Your task to perform on an android device: Search for macbook on newegg, select the first entry, and add it to the cart. Image 0: 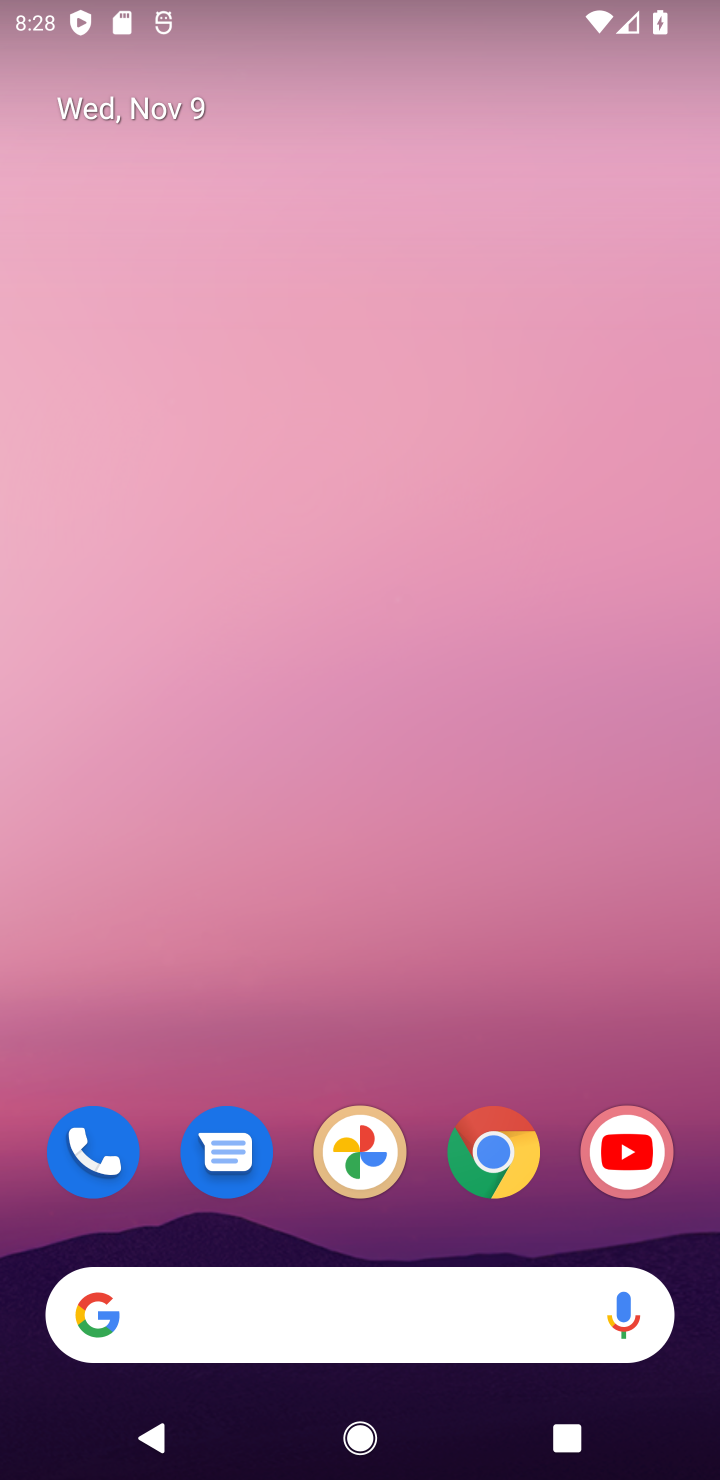
Step 0: click (487, 1158)
Your task to perform on an android device: Search for macbook on newegg, select the first entry, and add it to the cart. Image 1: 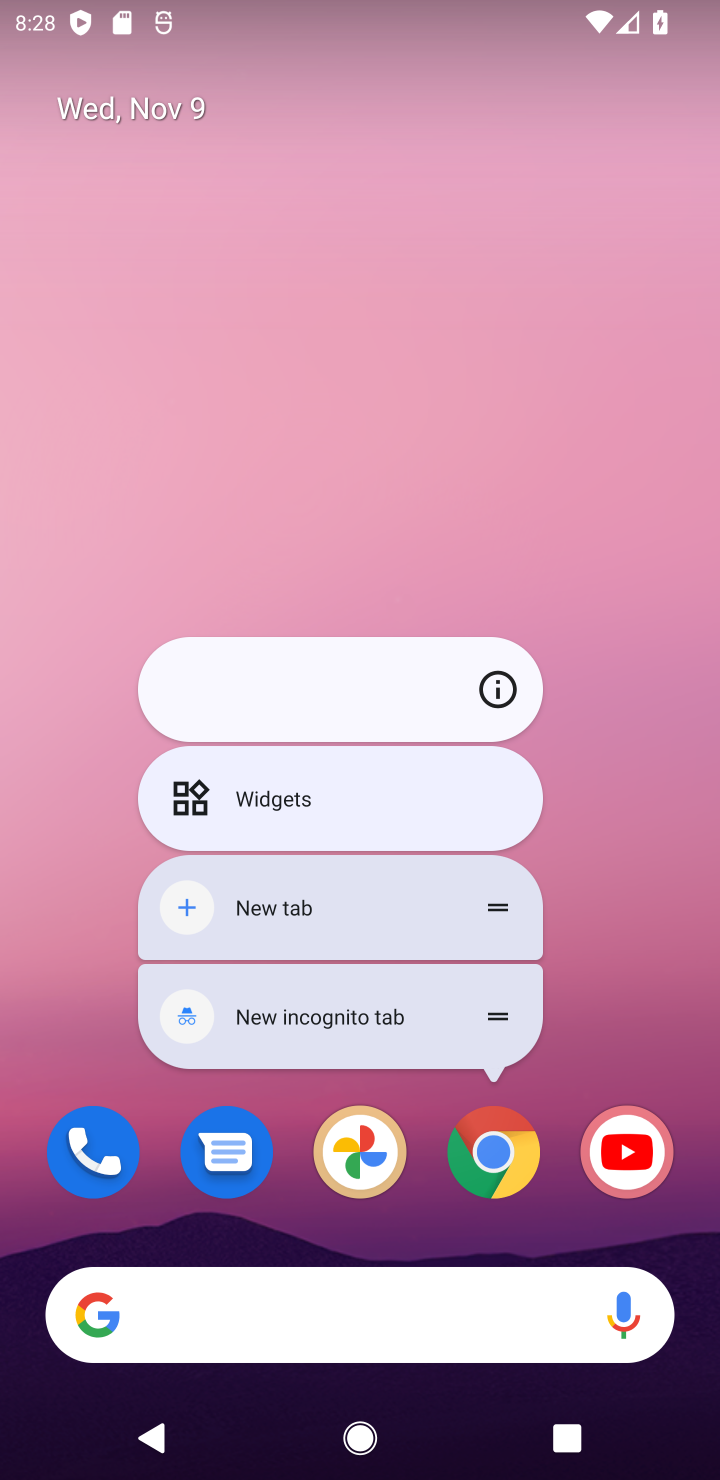
Step 1: click (487, 1156)
Your task to perform on an android device: Search for macbook on newegg, select the first entry, and add it to the cart. Image 2: 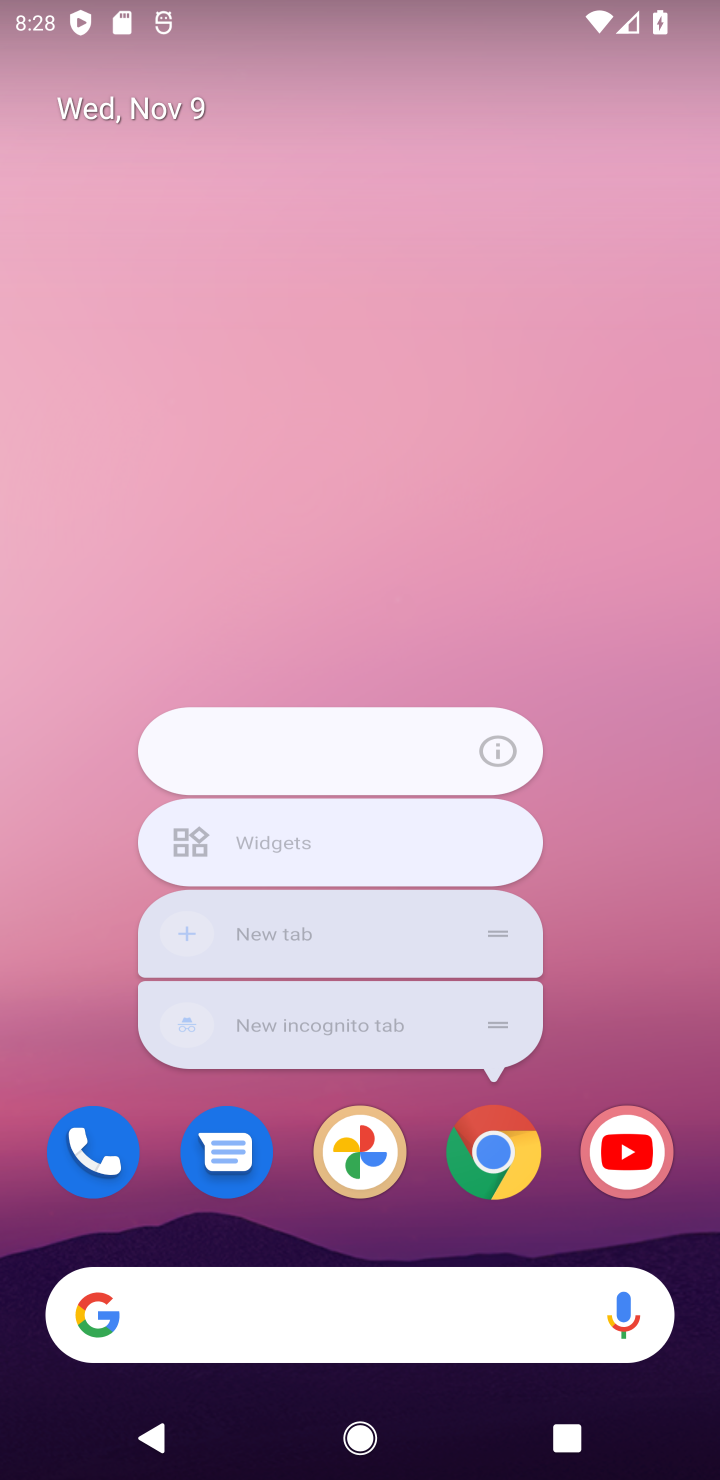
Step 2: click (487, 1156)
Your task to perform on an android device: Search for macbook on newegg, select the first entry, and add it to the cart. Image 3: 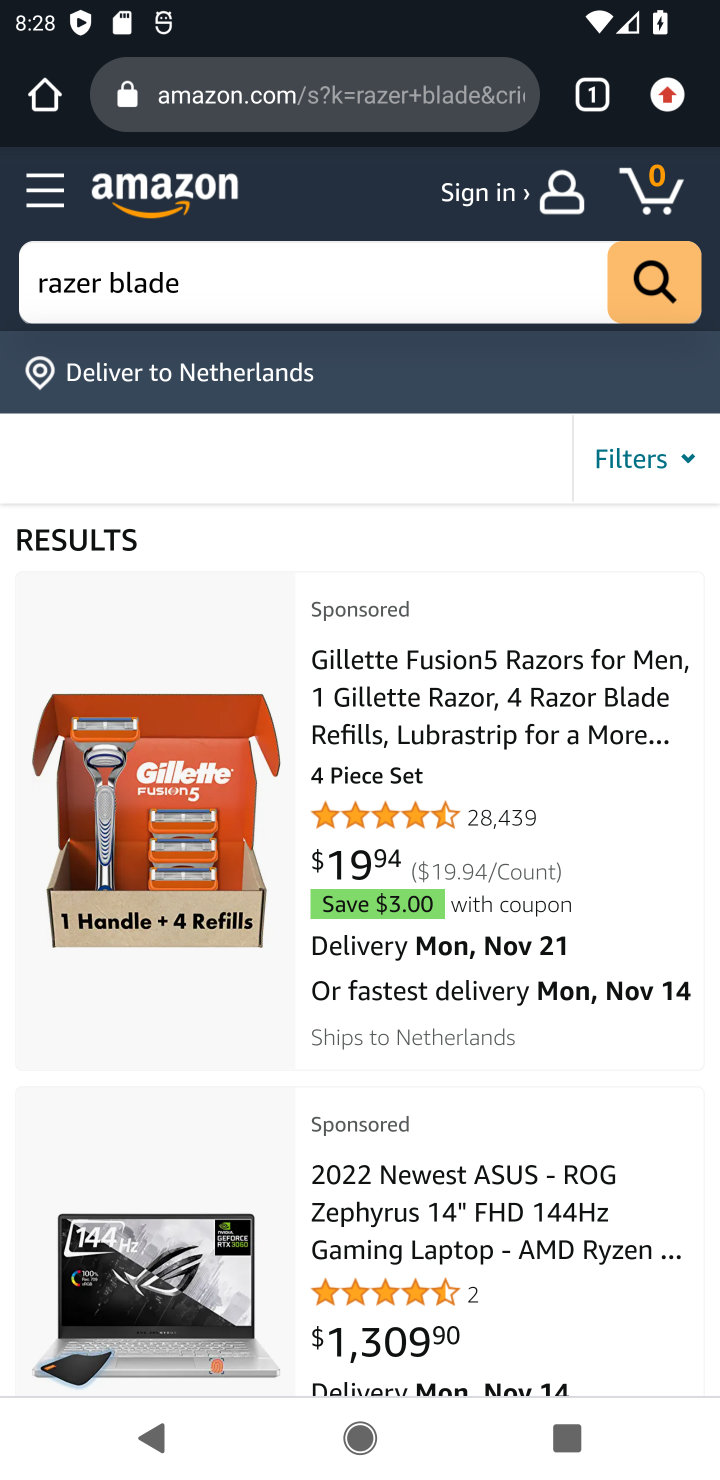
Step 3: click (358, 95)
Your task to perform on an android device: Search for macbook on newegg, select the first entry, and add it to the cart. Image 4: 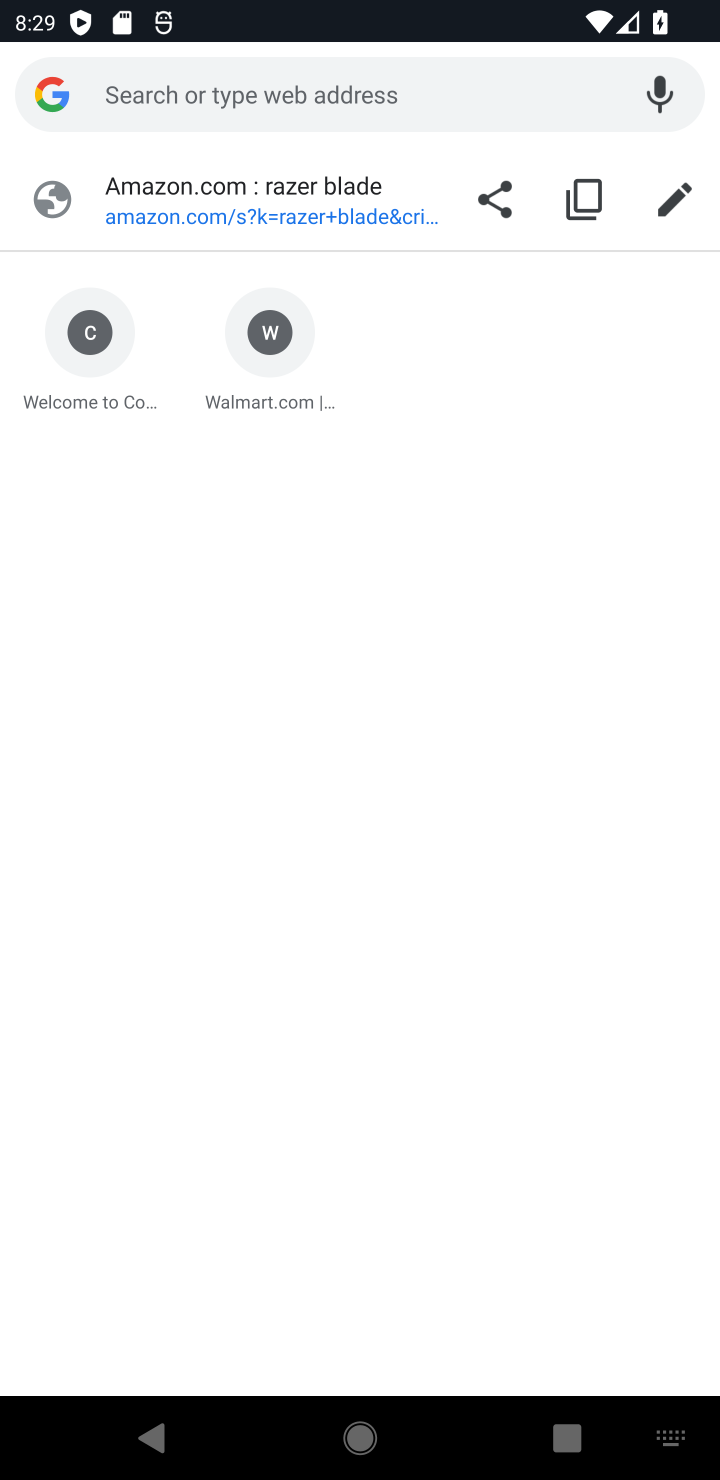
Step 4: press enter
Your task to perform on an android device: Search for macbook on newegg, select the first entry, and add it to the cart. Image 5: 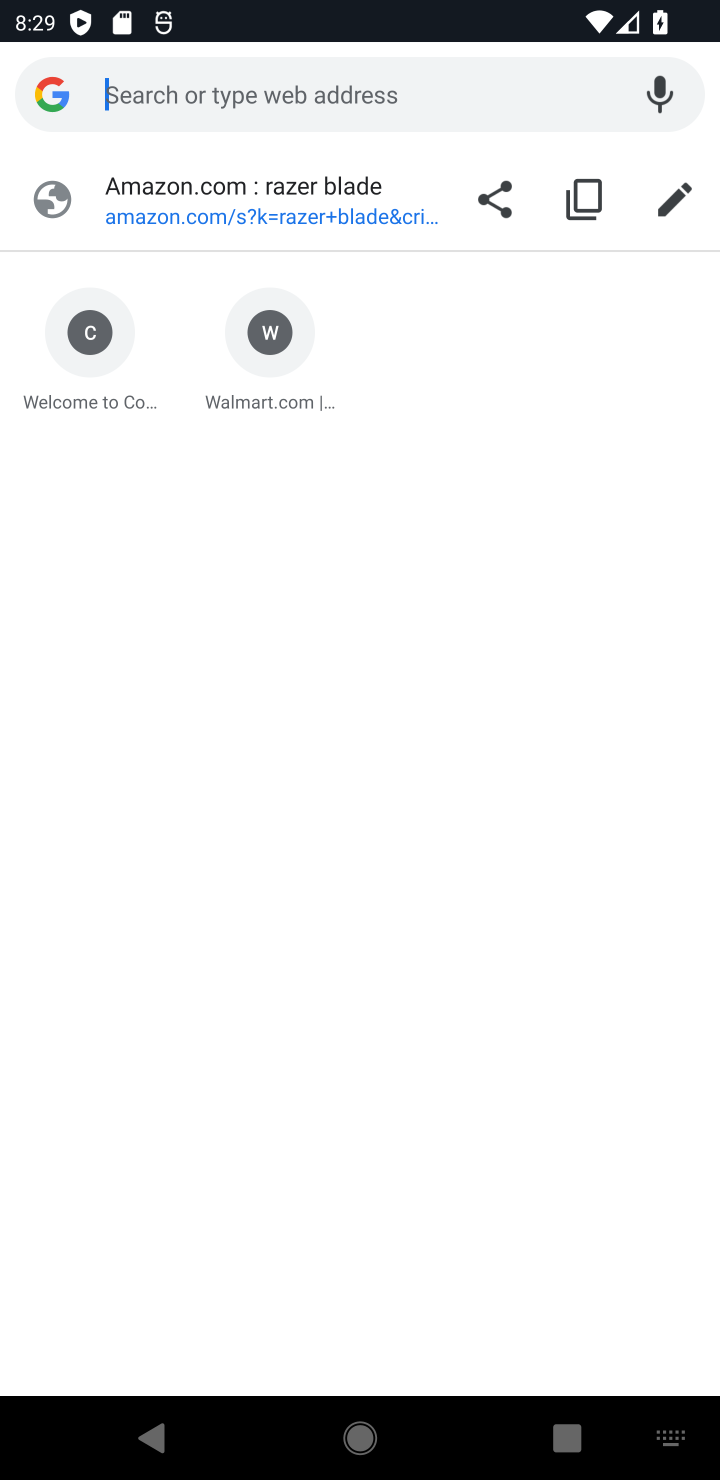
Step 5: type "newegg"
Your task to perform on an android device: Search for macbook on newegg, select the first entry, and add it to the cart. Image 6: 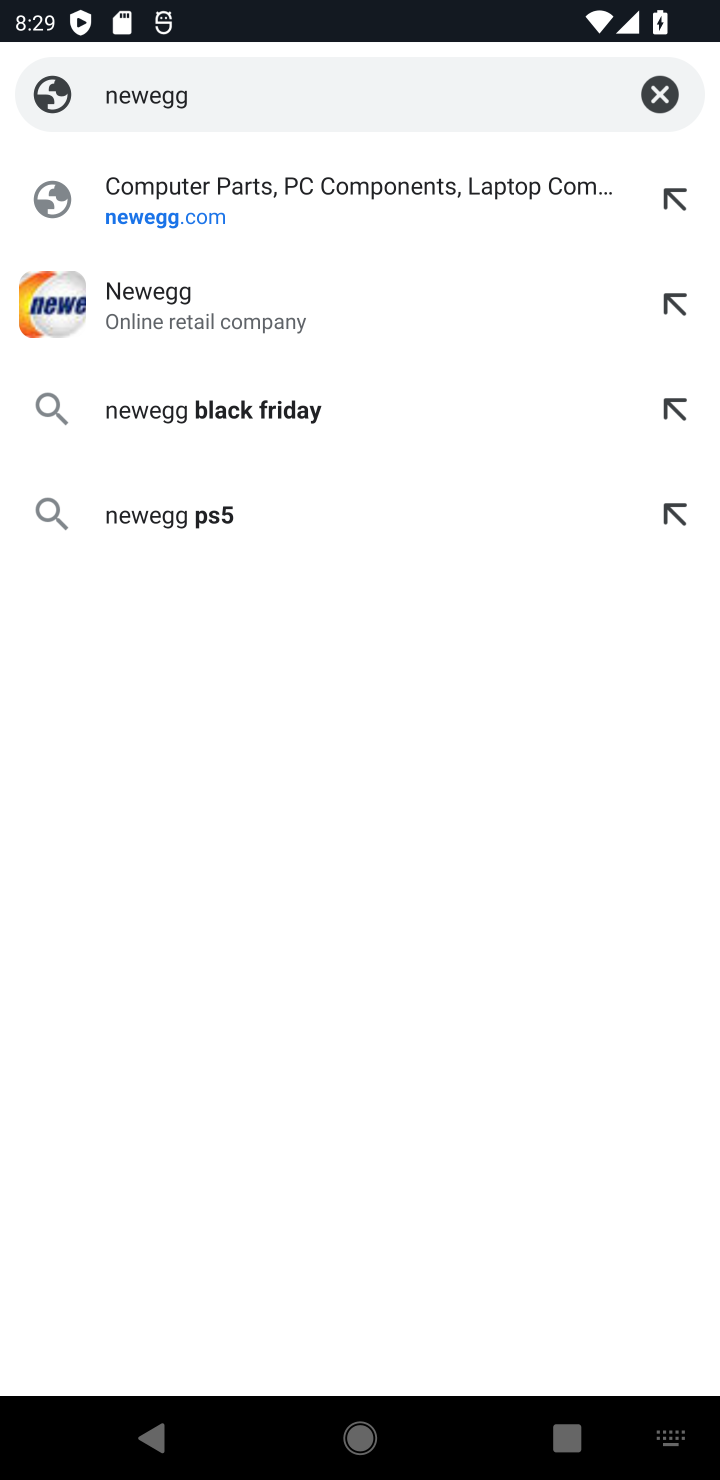
Step 6: click (152, 296)
Your task to perform on an android device: Search for macbook on newegg, select the first entry, and add it to the cart. Image 7: 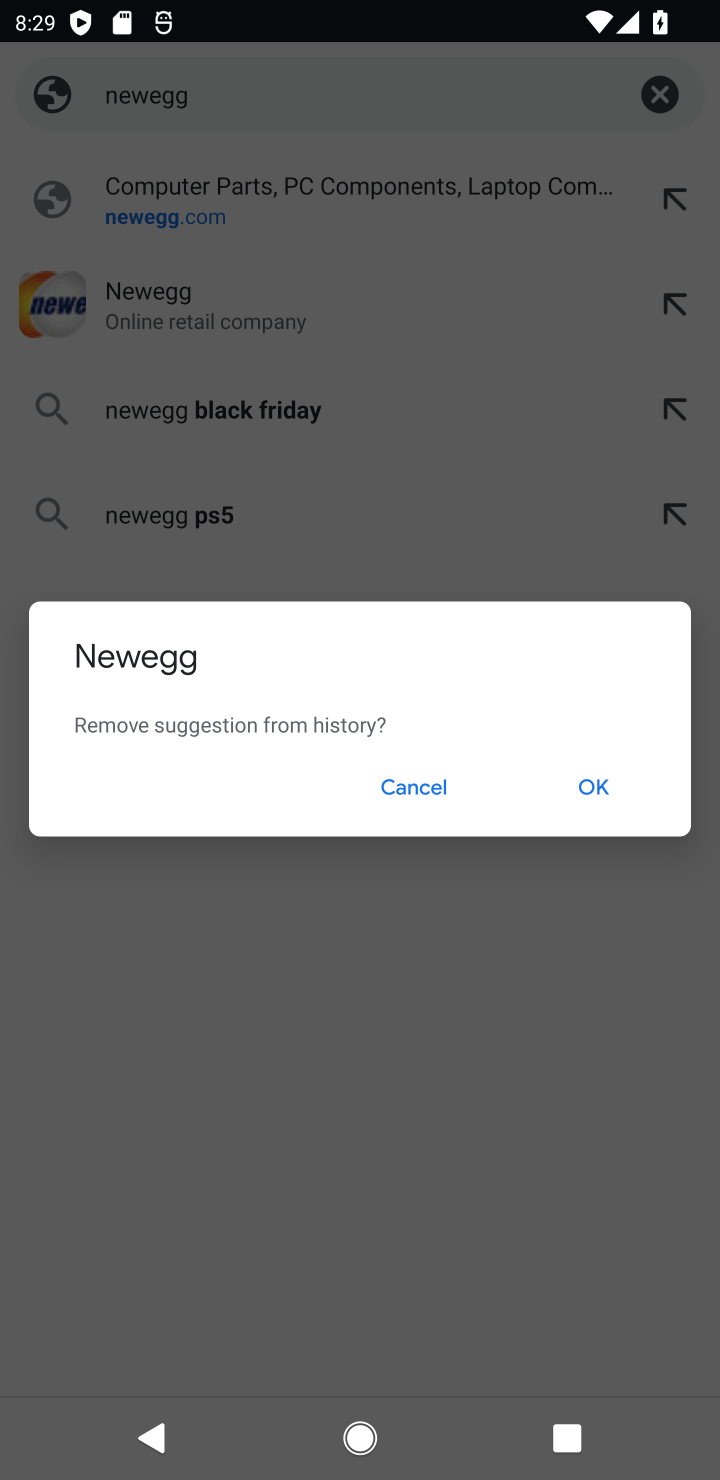
Step 7: click (414, 795)
Your task to perform on an android device: Search for macbook on newegg, select the first entry, and add it to the cart. Image 8: 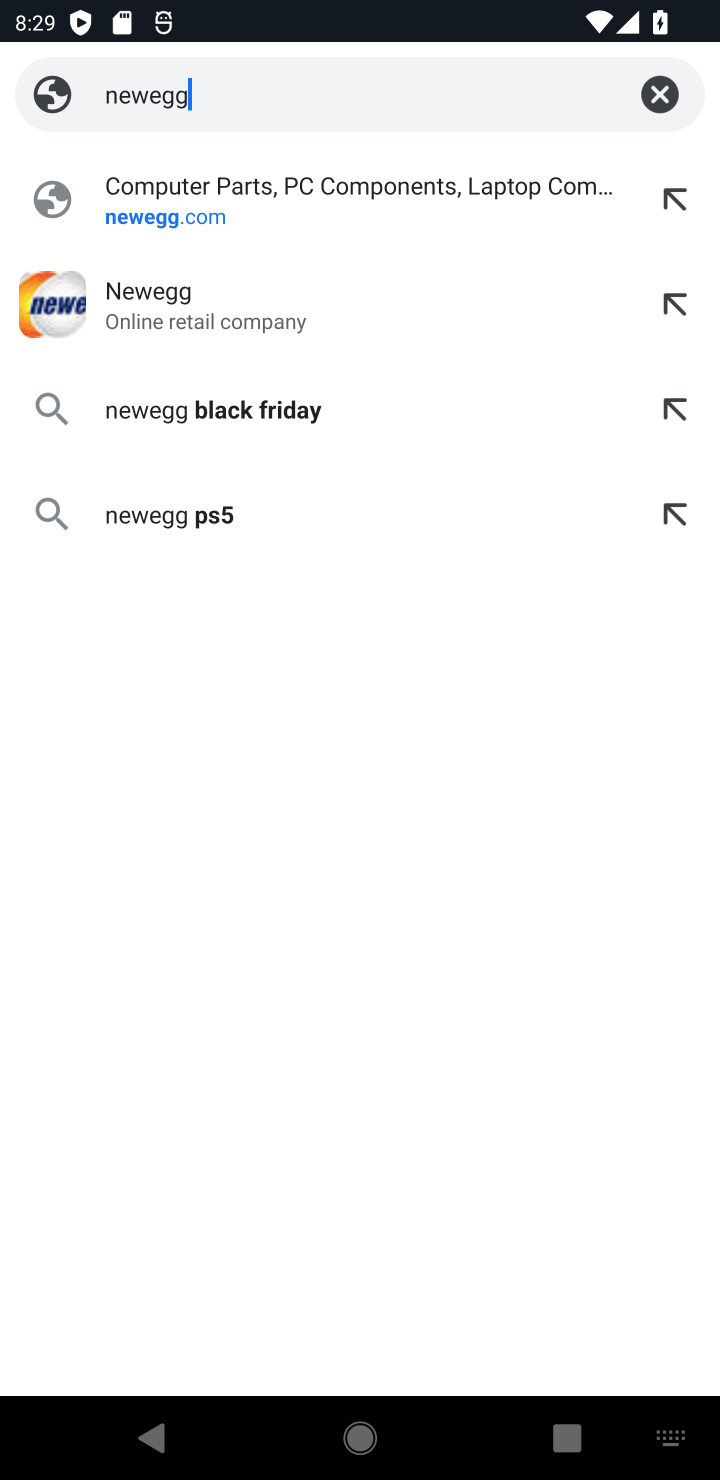
Step 8: click (170, 303)
Your task to perform on an android device: Search for macbook on newegg, select the first entry, and add it to the cart. Image 9: 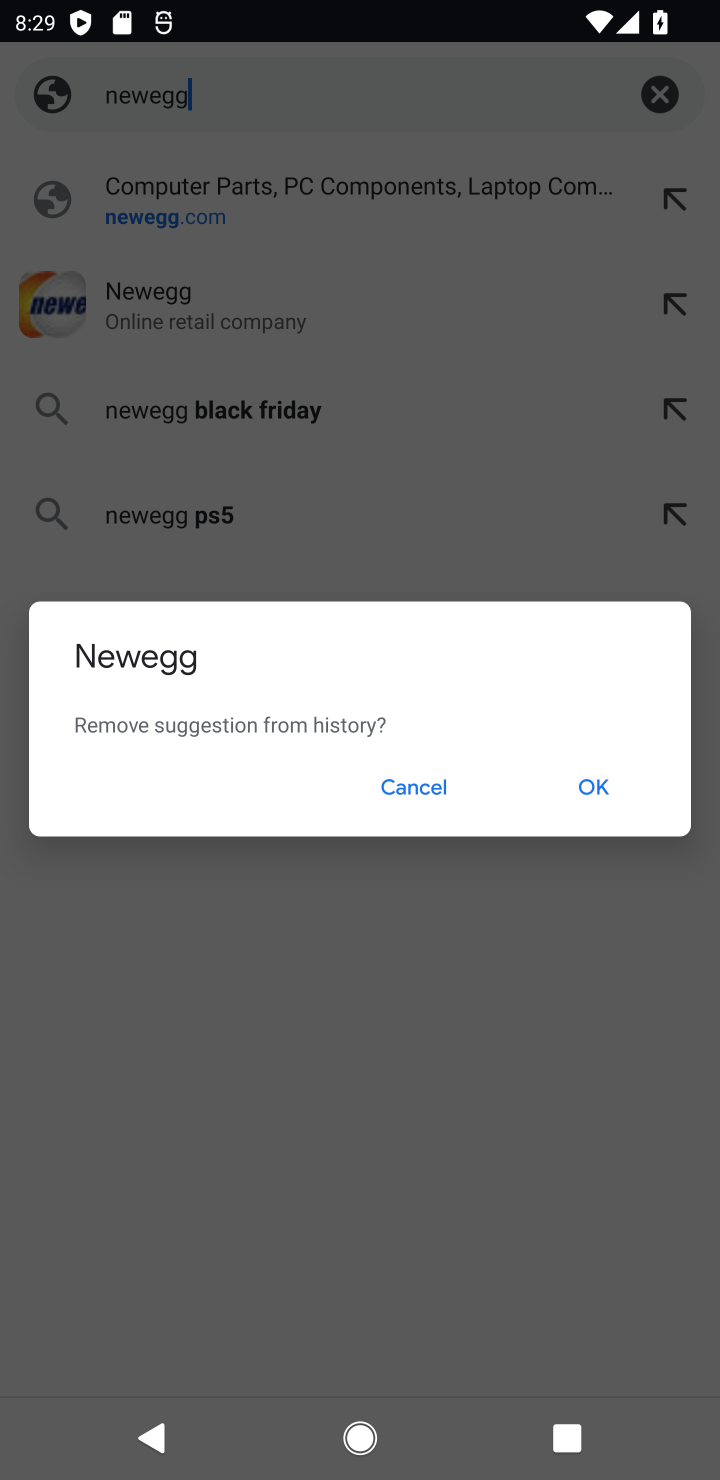
Step 9: click (433, 784)
Your task to perform on an android device: Search for macbook on newegg, select the first entry, and add it to the cart. Image 10: 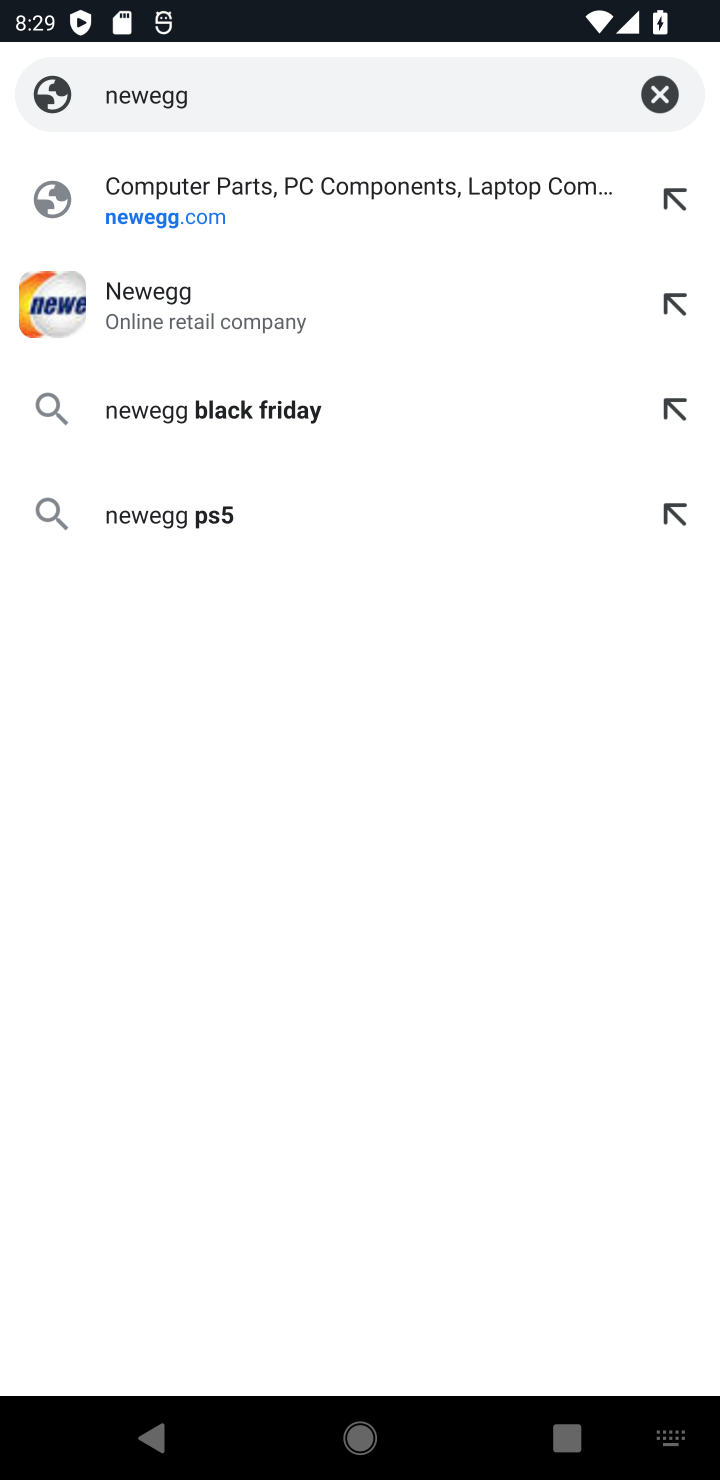
Step 10: click (158, 287)
Your task to perform on an android device: Search for macbook on newegg, select the first entry, and add it to the cart. Image 11: 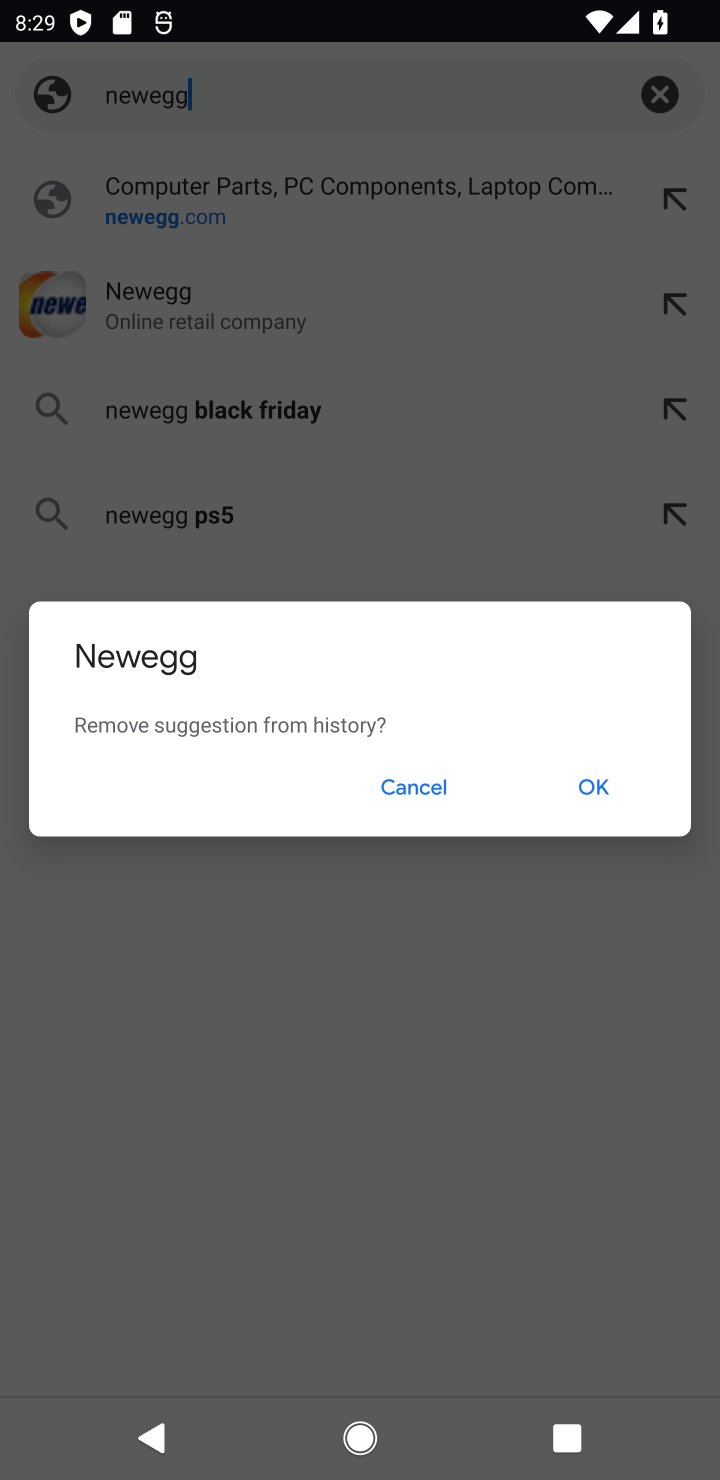
Step 11: click (432, 785)
Your task to perform on an android device: Search for macbook on newegg, select the first entry, and add it to the cart. Image 12: 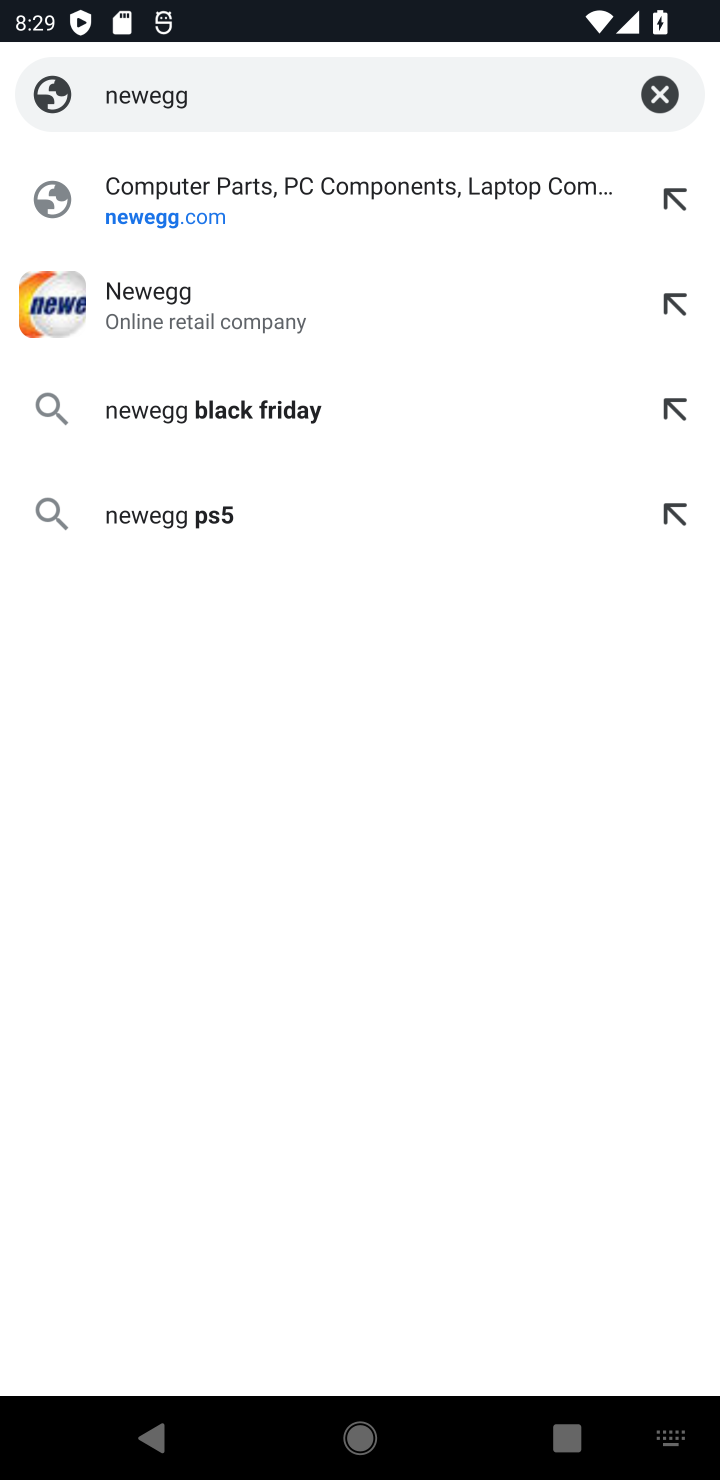
Step 12: press enter
Your task to perform on an android device: Search for macbook on newegg, select the first entry, and add it to the cart. Image 13: 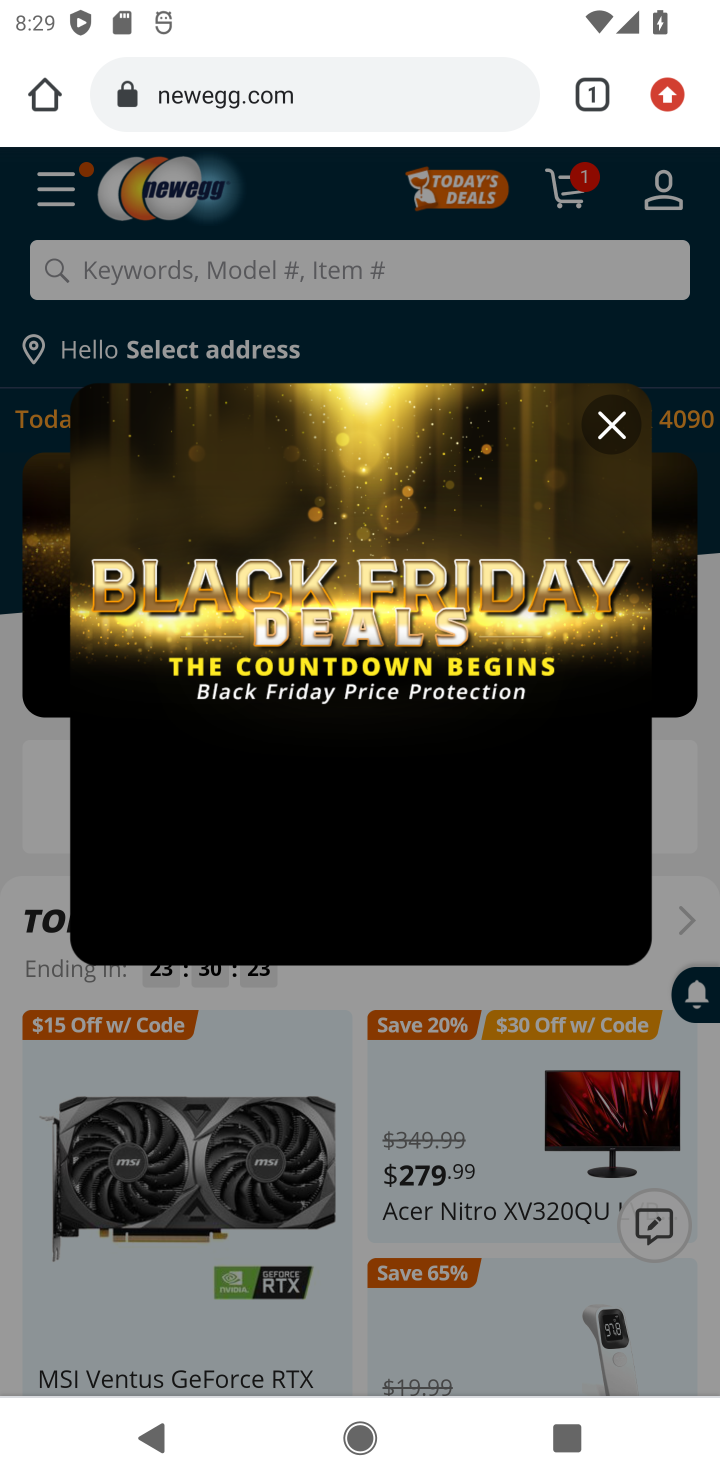
Step 13: click (305, 269)
Your task to perform on an android device: Search for macbook on newegg, select the first entry, and add it to the cart. Image 14: 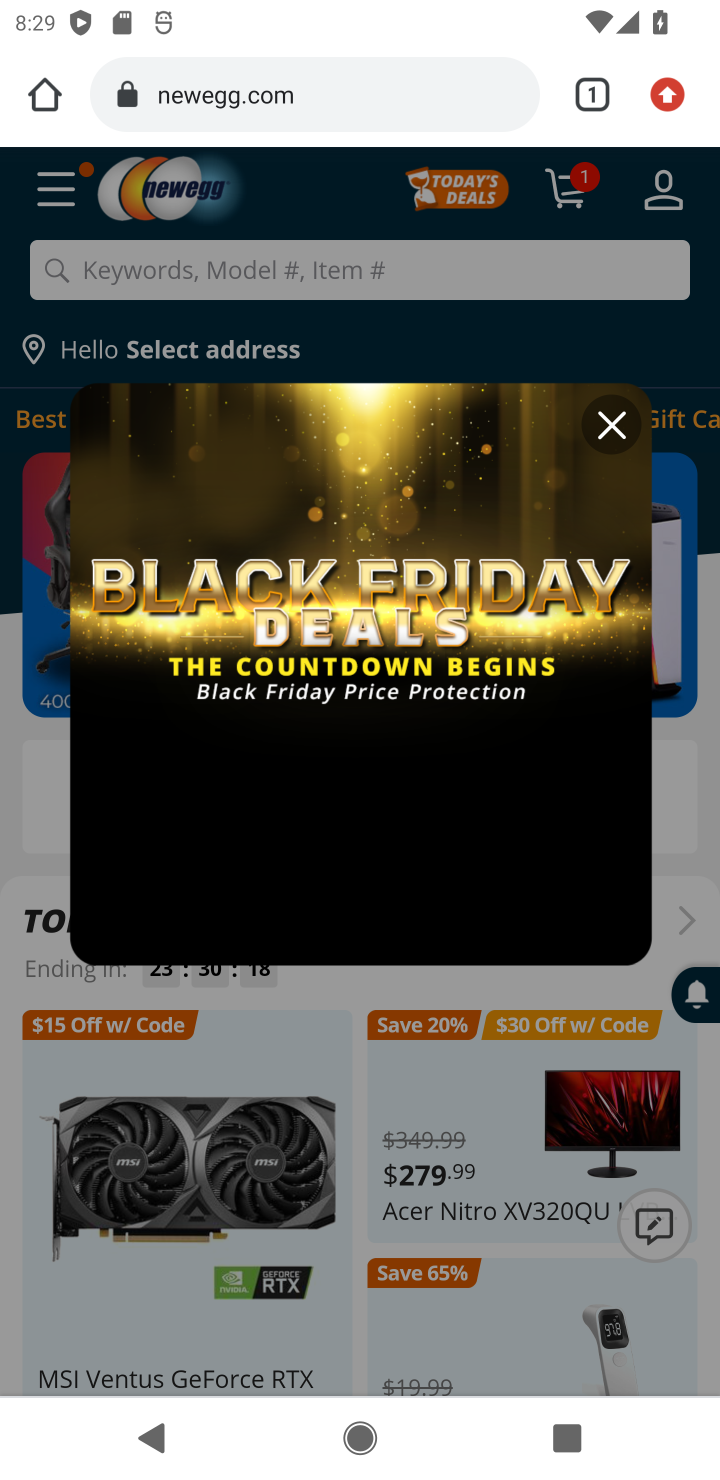
Step 14: click (246, 268)
Your task to perform on an android device: Search for macbook on newegg, select the first entry, and add it to the cart. Image 15: 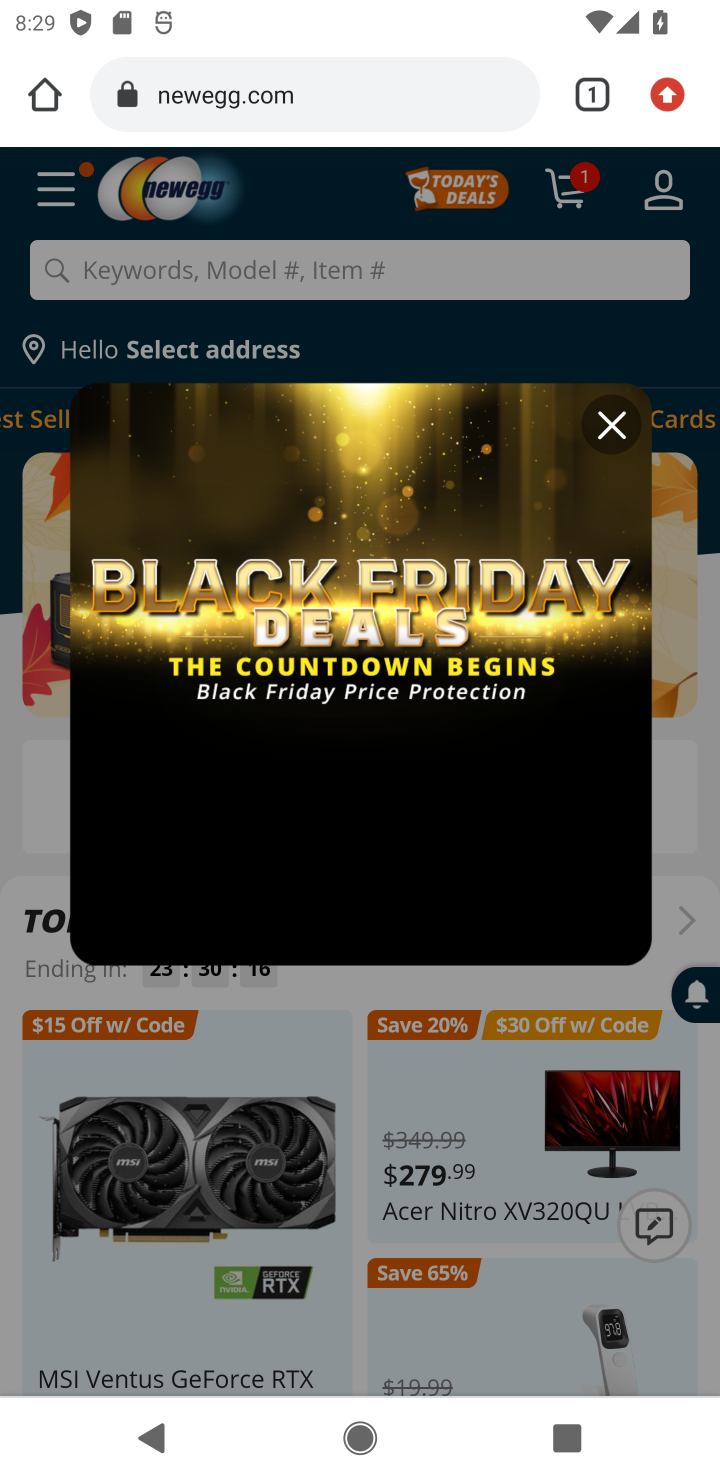
Step 15: click (613, 423)
Your task to perform on an android device: Search for macbook on newegg, select the first entry, and add it to the cart. Image 16: 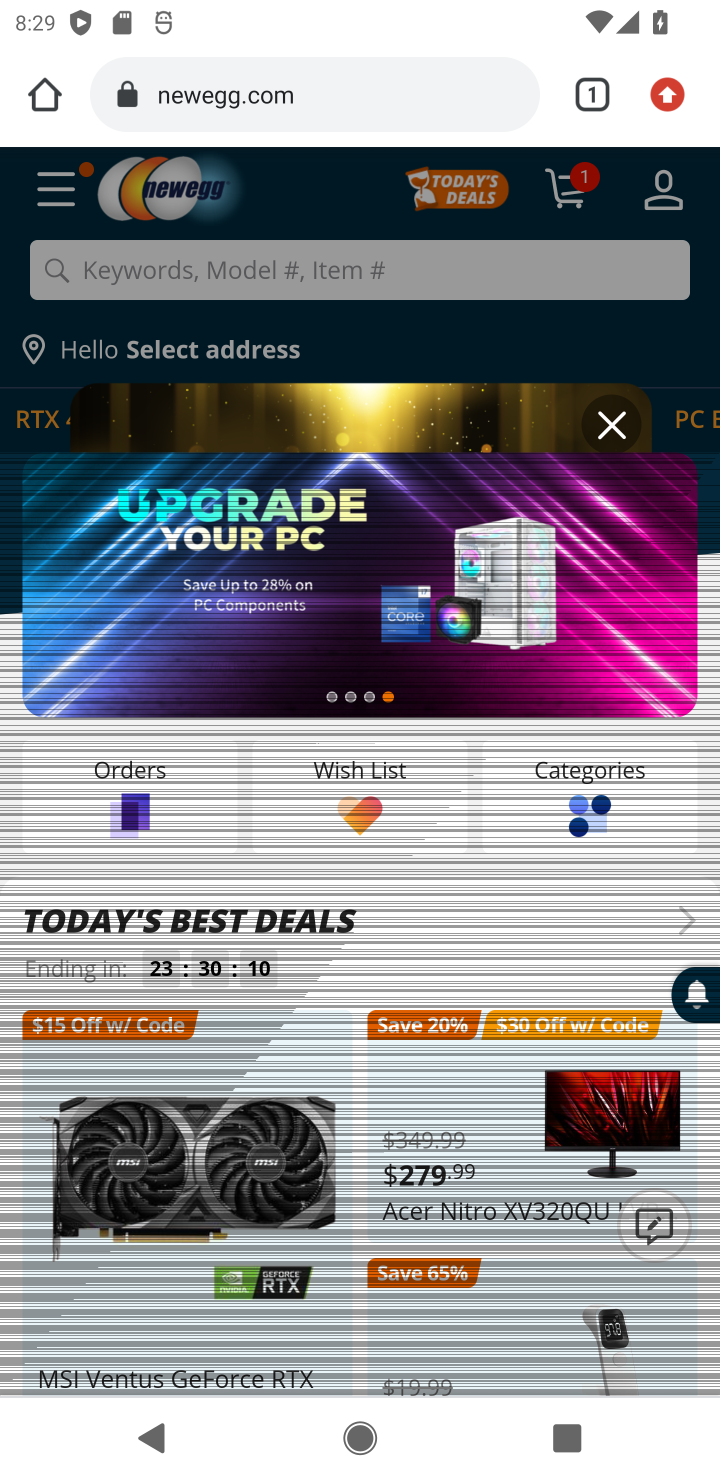
Step 16: click (611, 432)
Your task to perform on an android device: Search for macbook on newegg, select the first entry, and add it to the cart. Image 17: 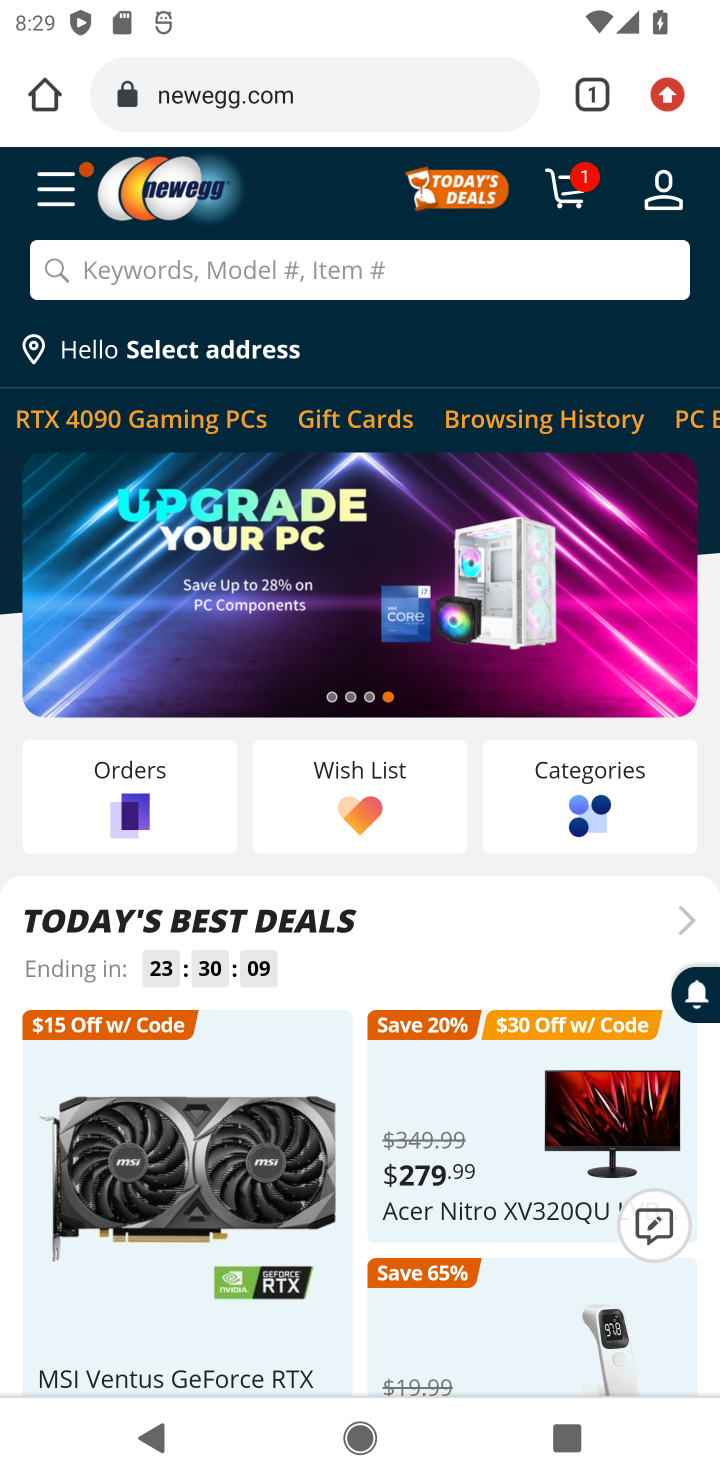
Step 17: click (611, 425)
Your task to perform on an android device: Search for macbook on newegg, select the first entry, and add it to the cart. Image 18: 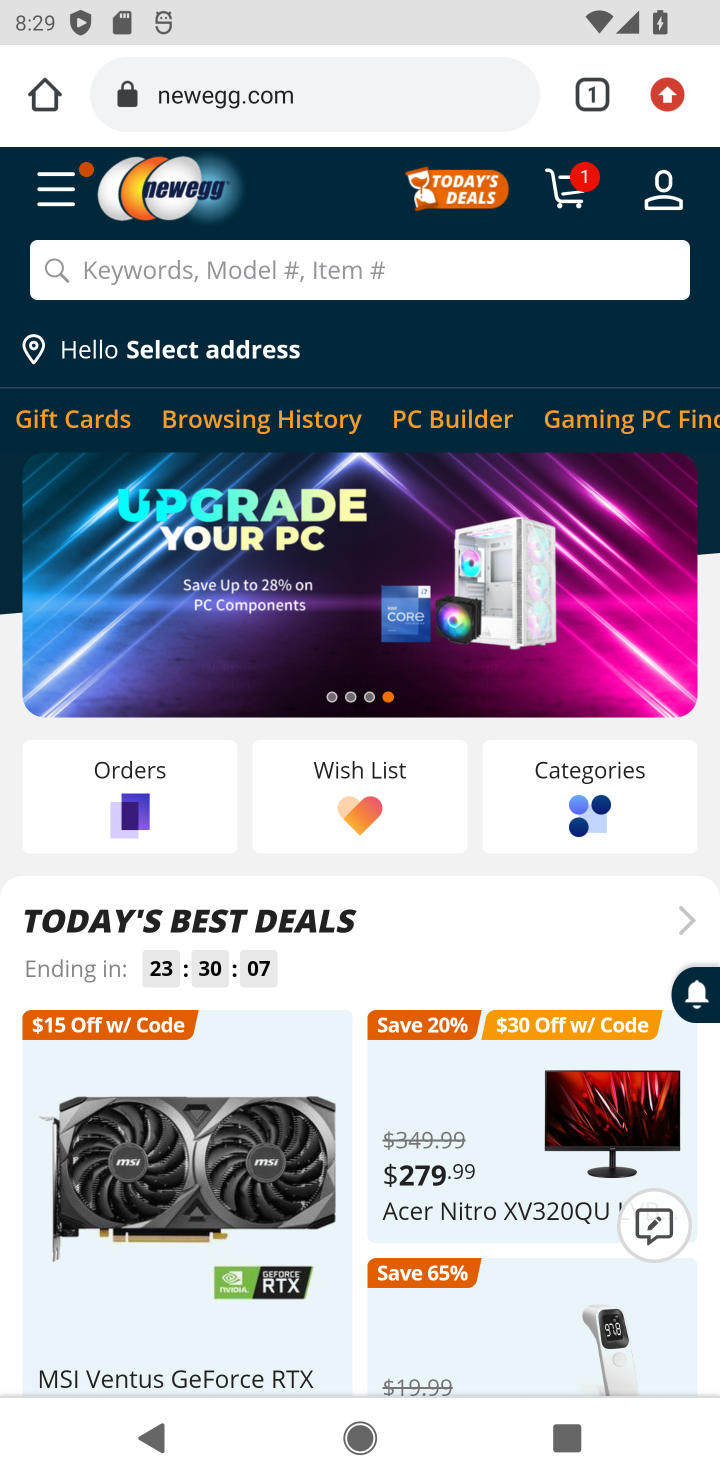
Step 18: click (288, 265)
Your task to perform on an android device: Search for macbook on newegg, select the first entry, and add it to the cart. Image 19: 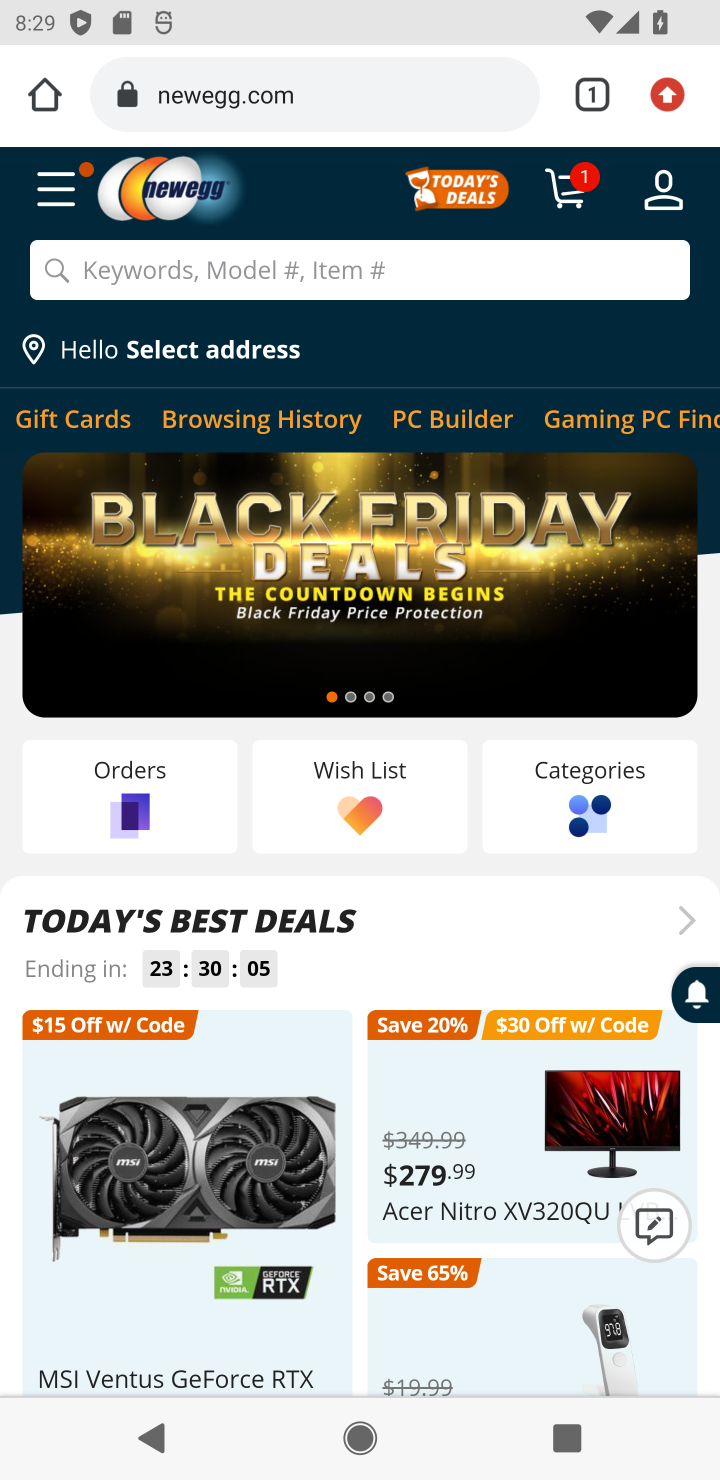
Step 19: click (288, 261)
Your task to perform on an android device: Search for macbook on newegg, select the first entry, and add it to the cart. Image 20: 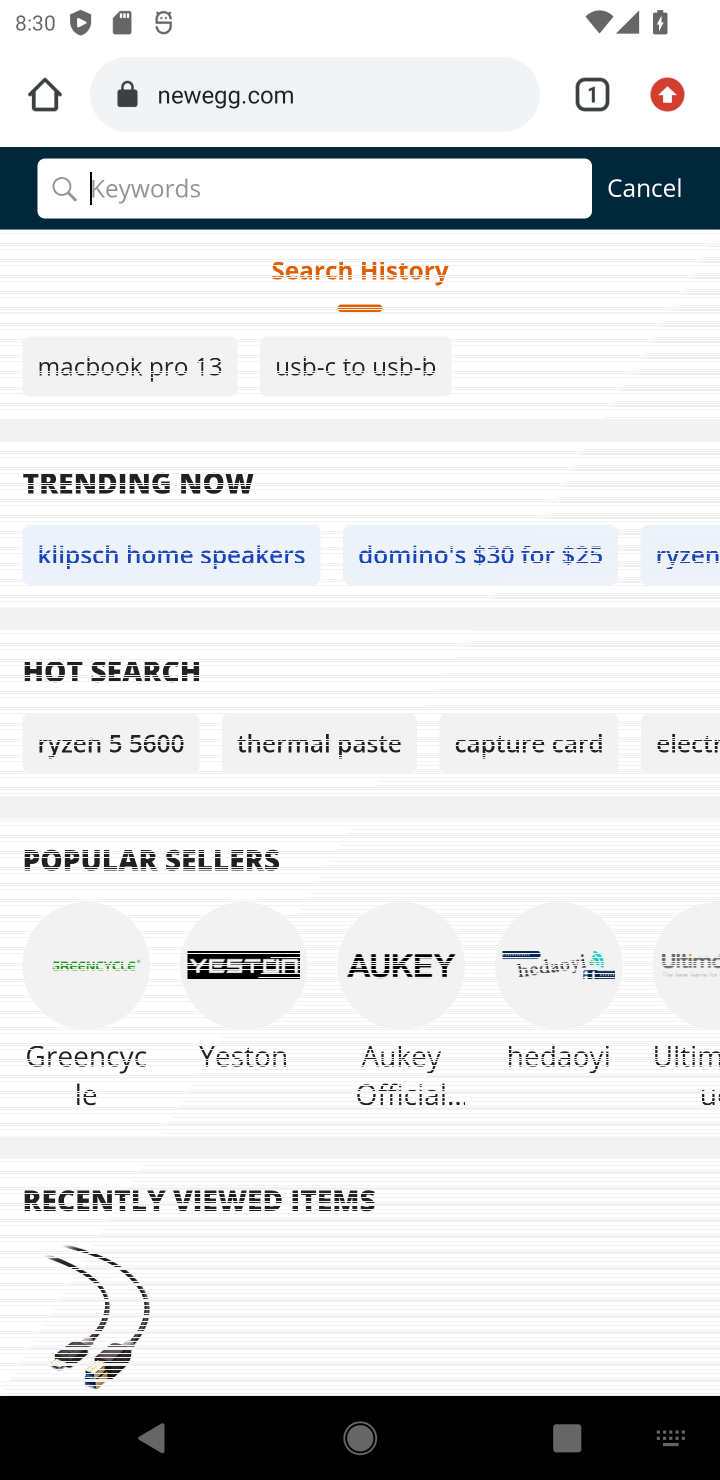
Step 20: type "macbook"
Your task to perform on an android device: Search for macbook on newegg, select the first entry, and add it to the cart. Image 21: 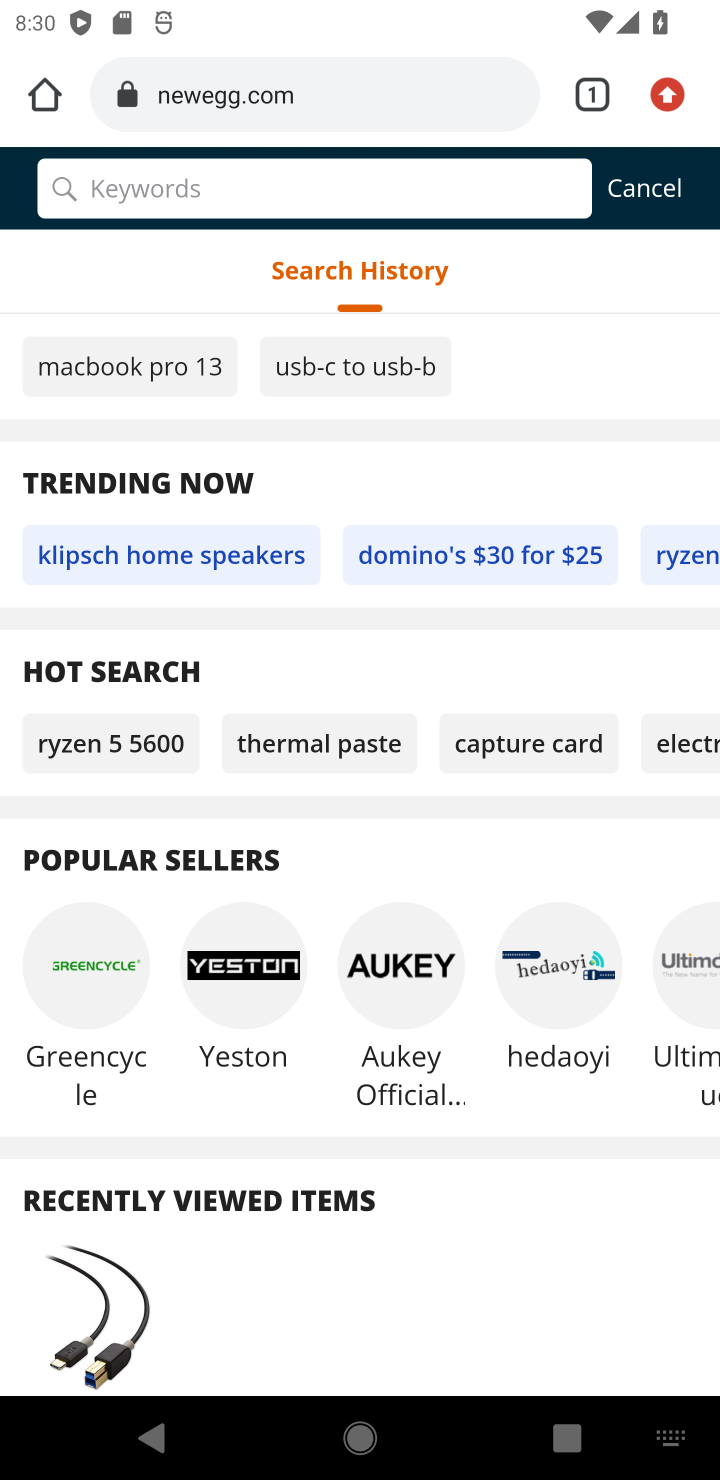
Step 21: press enter
Your task to perform on an android device: Search for macbook on newegg, select the first entry, and add it to the cart. Image 22: 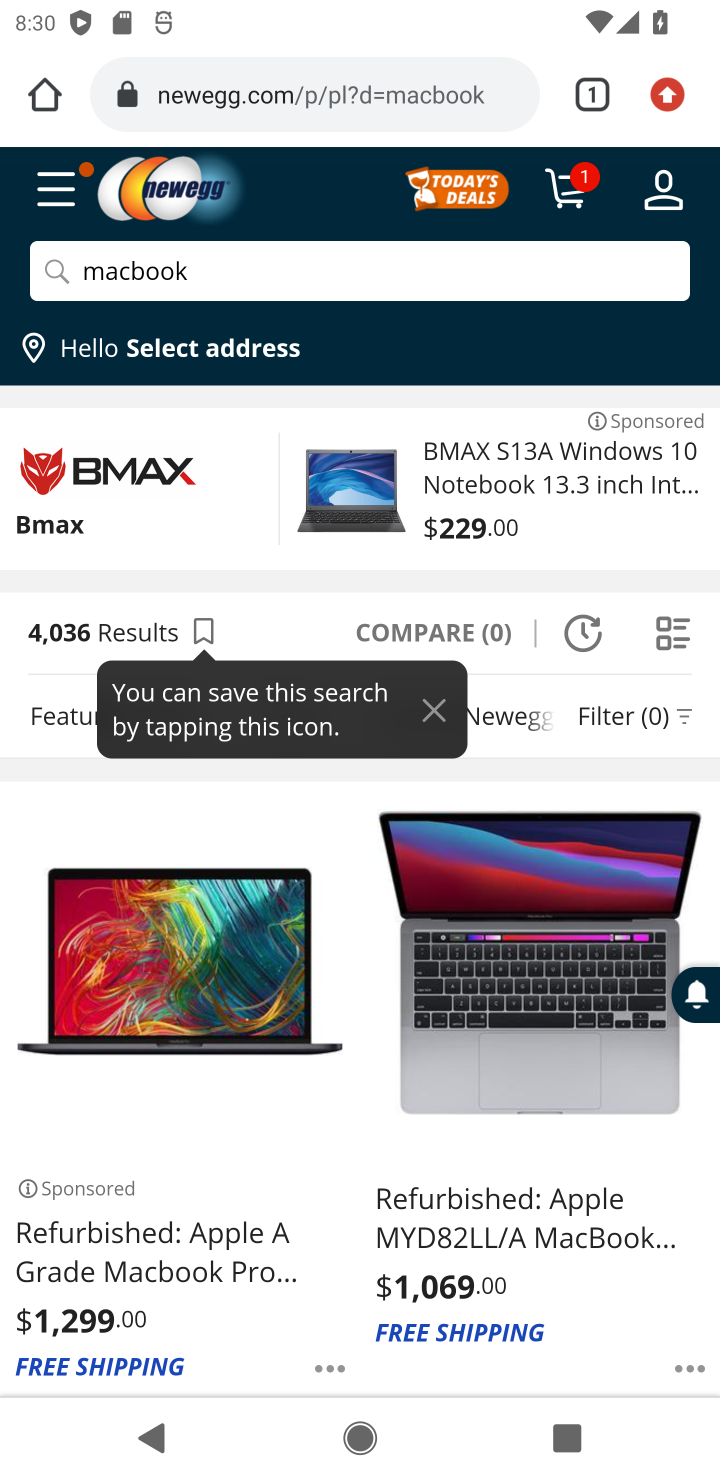
Step 22: click (163, 1258)
Your task to perform on an android device: Search for macbook on newegg, select the first entry, and add it to the cart. Image 23: 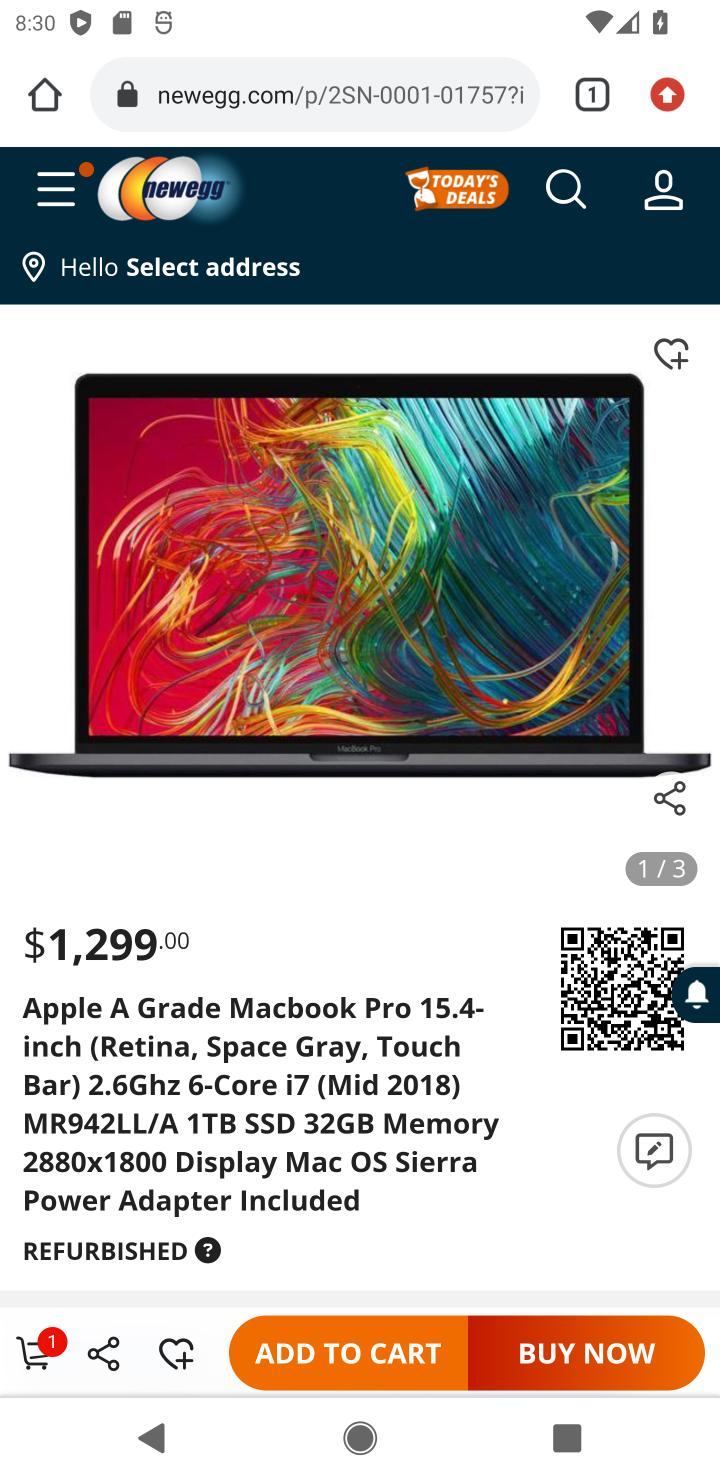
Step 23: drag from (357, 1144) to (572, 671)
Your task to perform on an android device: Search for macbook on newegg, select the first entry, and add it to the cart. Image 24: 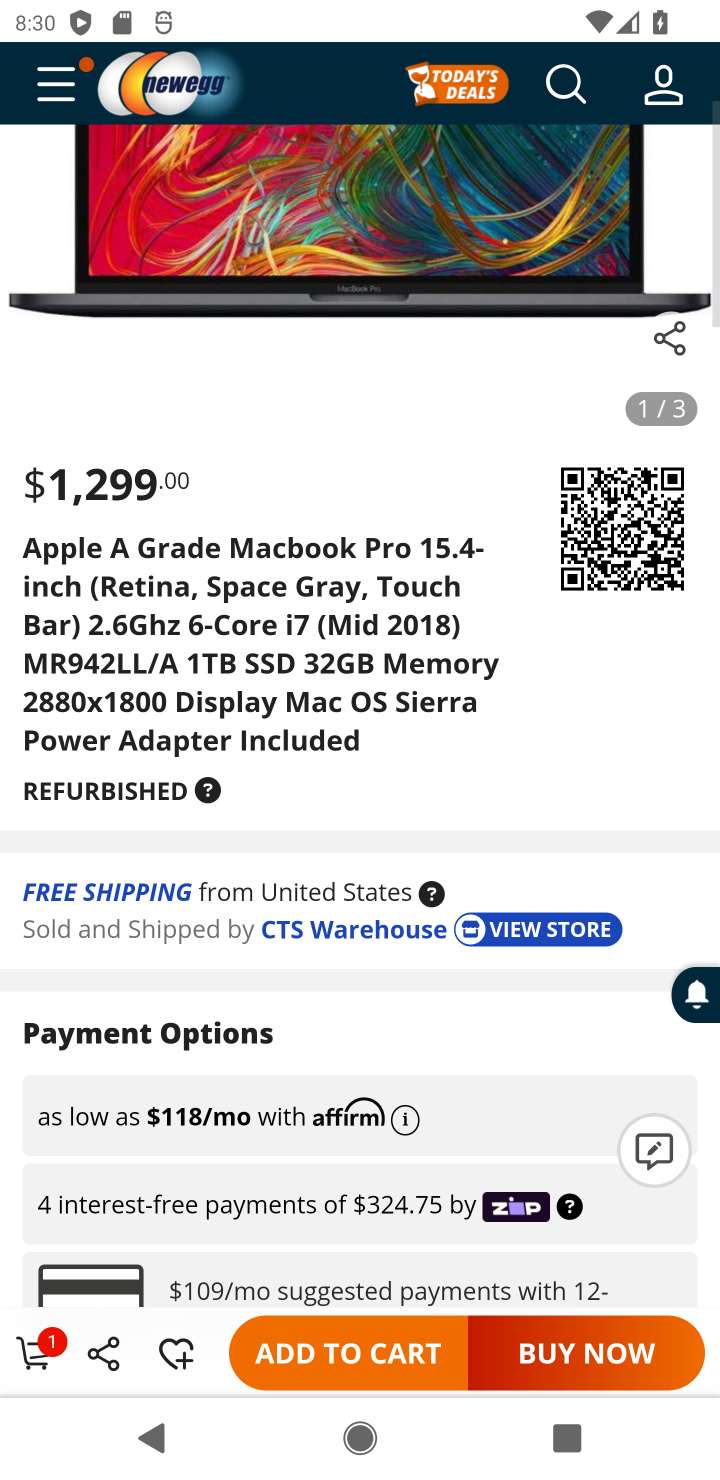
Step 24: click (351, 1354)
Your task to perform on an android device: Search for macbook on newegg, select the first entry, and add it to the cart. Image 25: 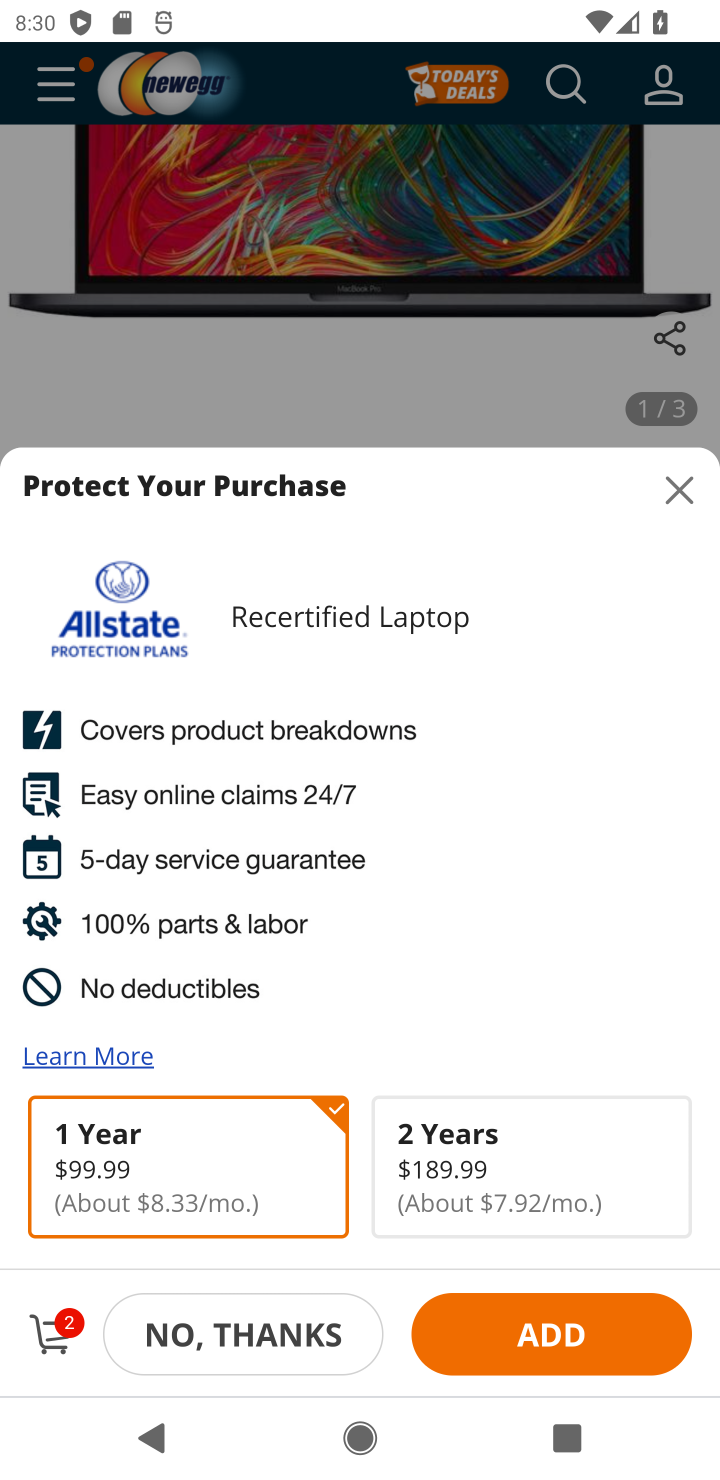
Step 25: click (64, 1320)
Your task to perform on an android device: Search for macbook on newegg, select the first entry, and add it to the cart. Image 26: 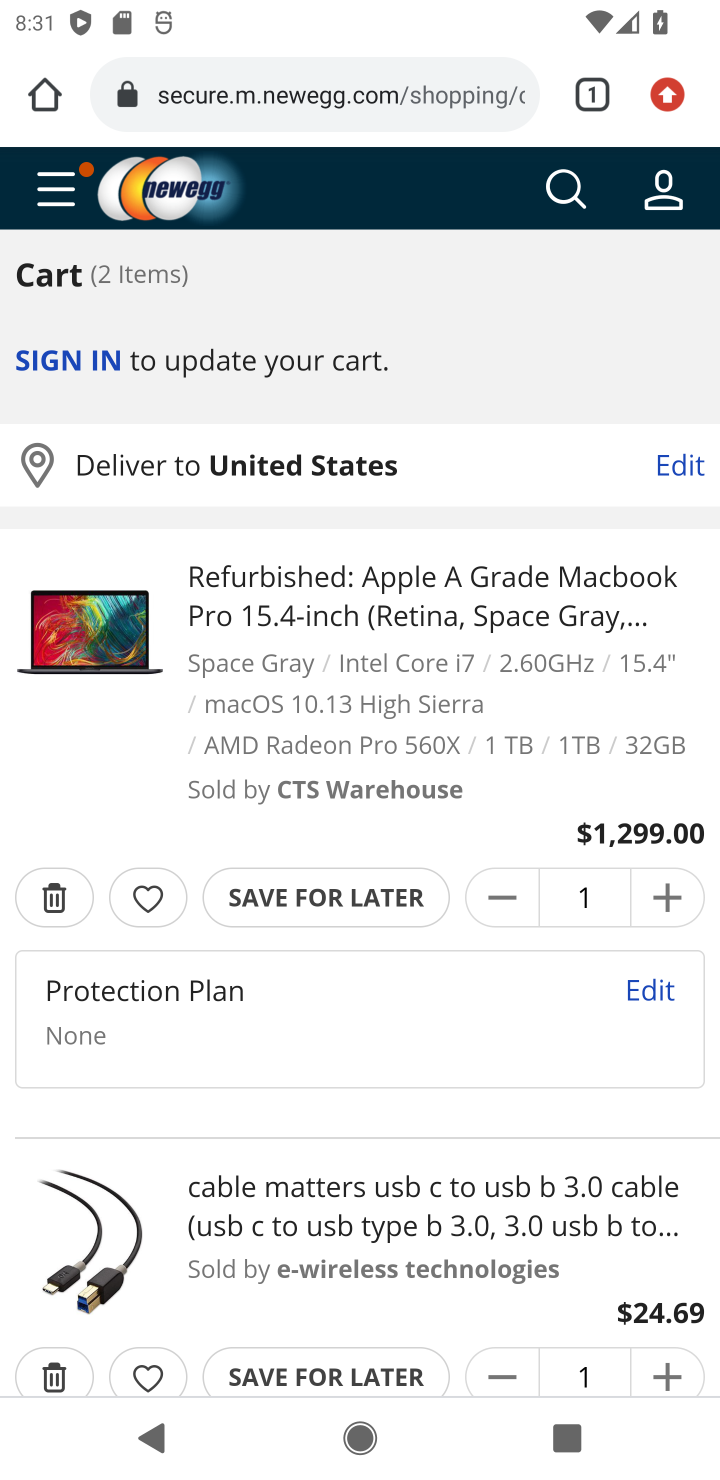
Step 26: drag from (176, 1147) to (496, 311)
Your task to perform on an android device: Search for macbook on newegg, select the first entry, and add it to the cart. Image 27: 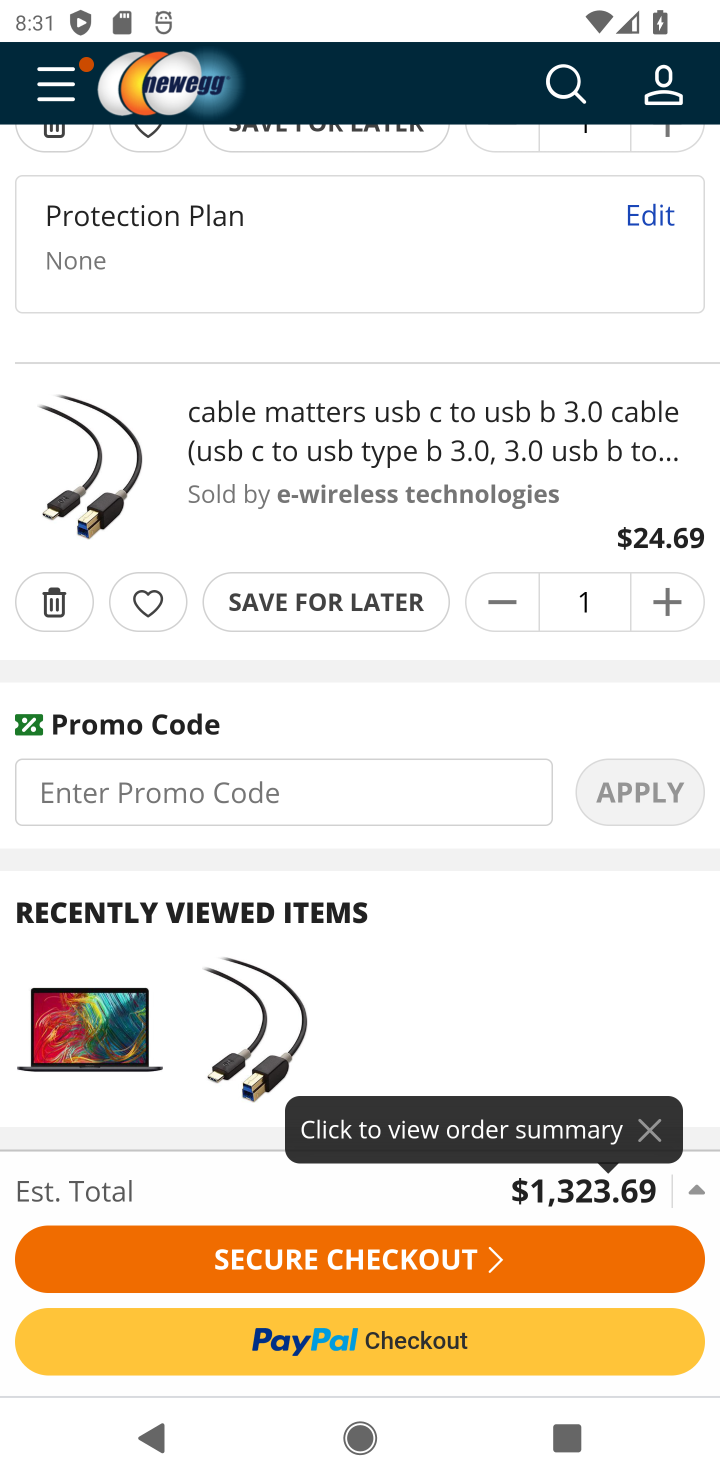
Step 27: click (53, 602)
Your task to perform on an android device: Search for macbook on newegg, select the first entry, and add it to the cart. Image 28: 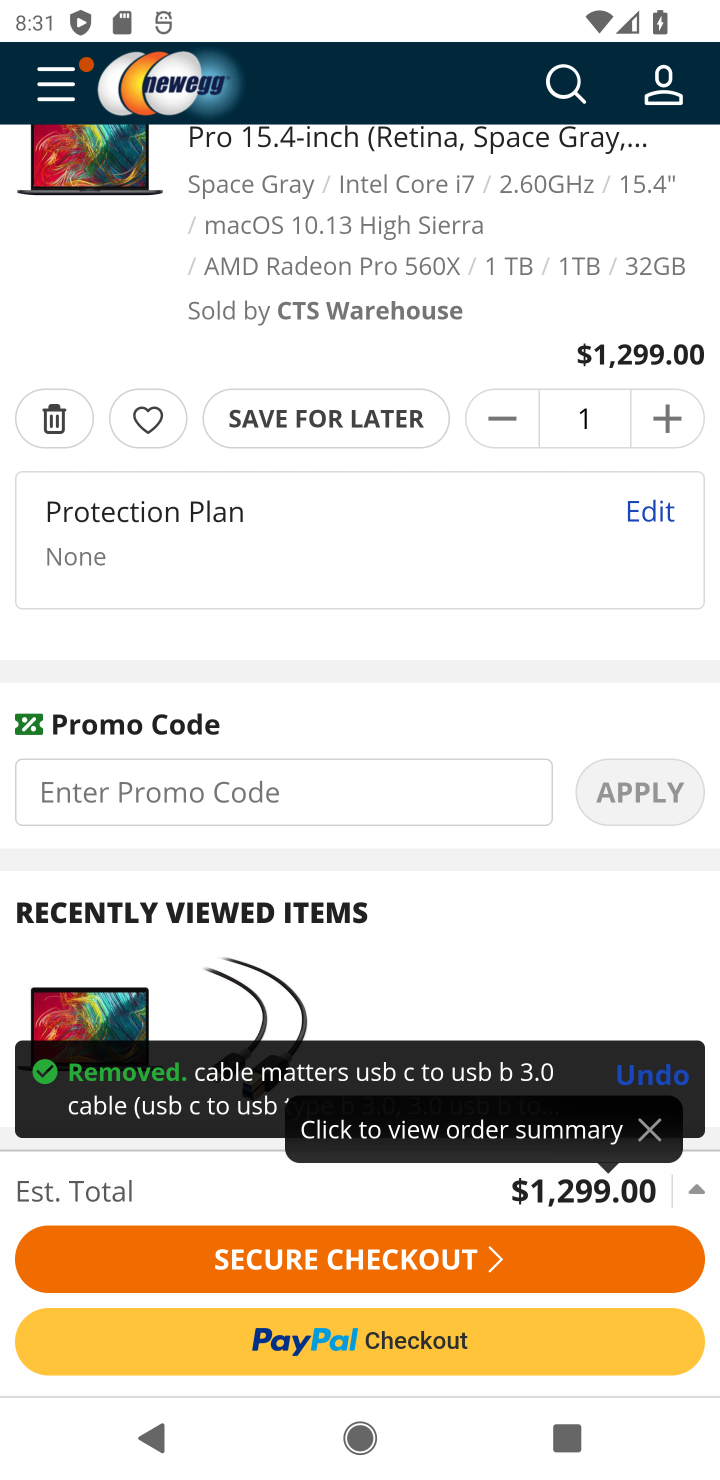
Step 28: click (36, 416)
Your task to perform on an android device: Search for macbook on newegg, select the first entry, and add it to the cart. Image 29: 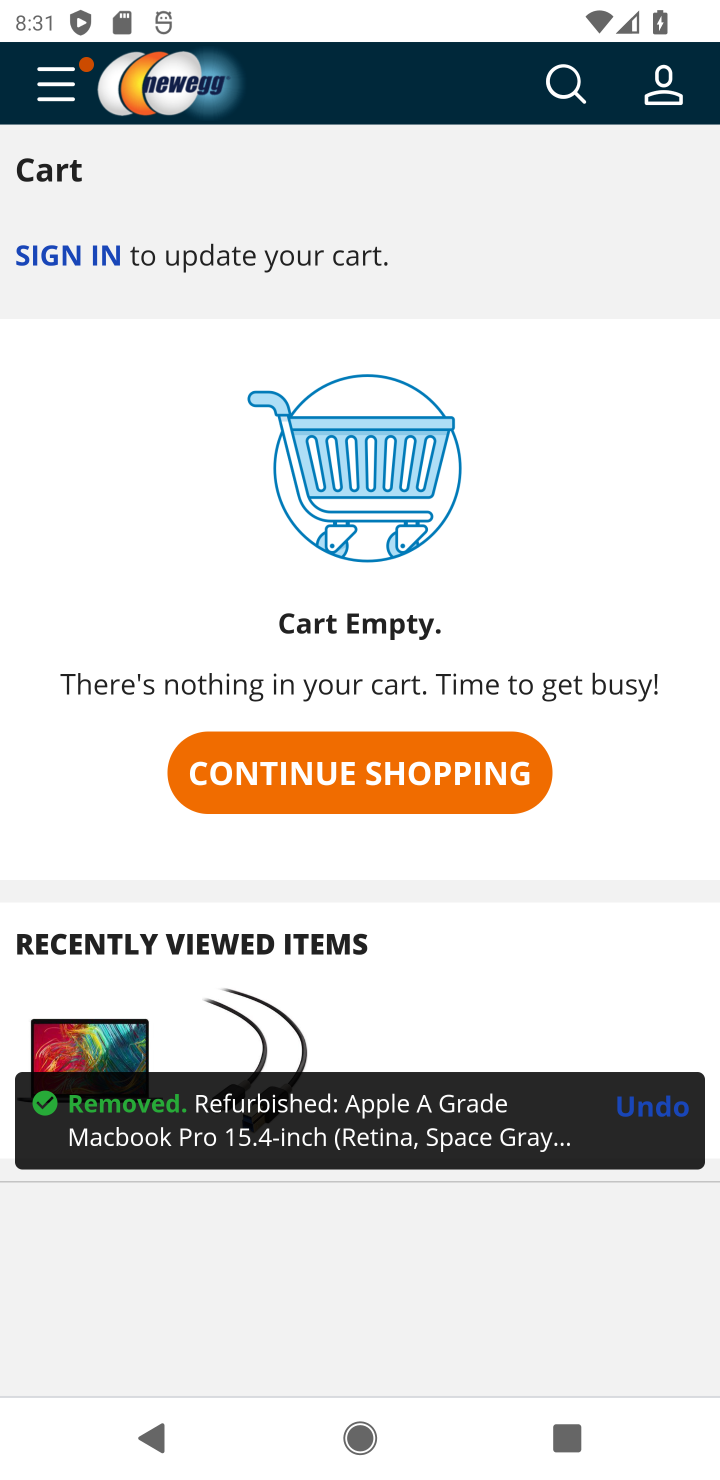
Step 29: drag from (211, 941) to (440, 515)
Your task to perform on an android device: Search for macbook on newegg, select the first entry, and add it to the cart. Image 30: 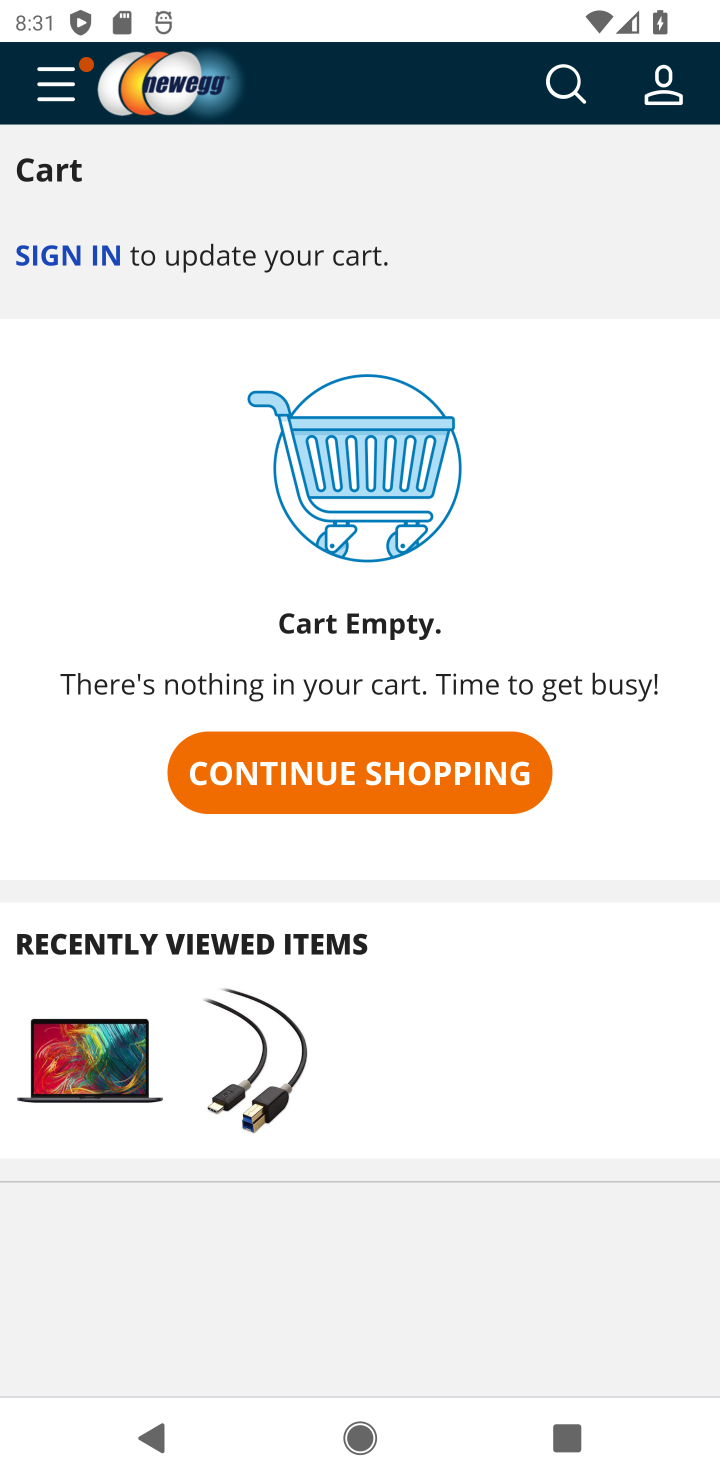
Step 30: press back button
Your task to perform on an android device: Search for macbook on newegg, select the first entry, and add it to the cart. Image 31: 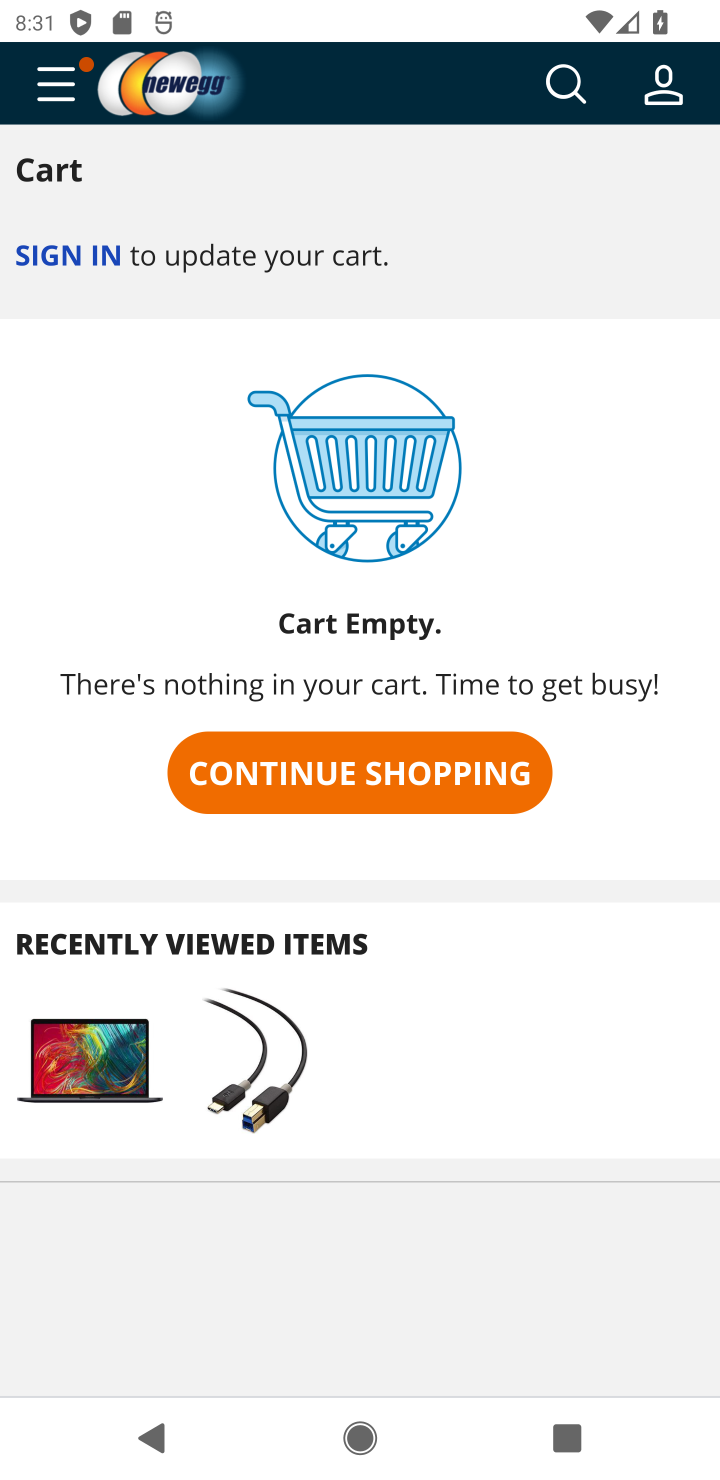
Step 31: press back button
Your task to perform on an android device: Search for macbook on newegg, select the first entry, and add it to the cart. Image 32: 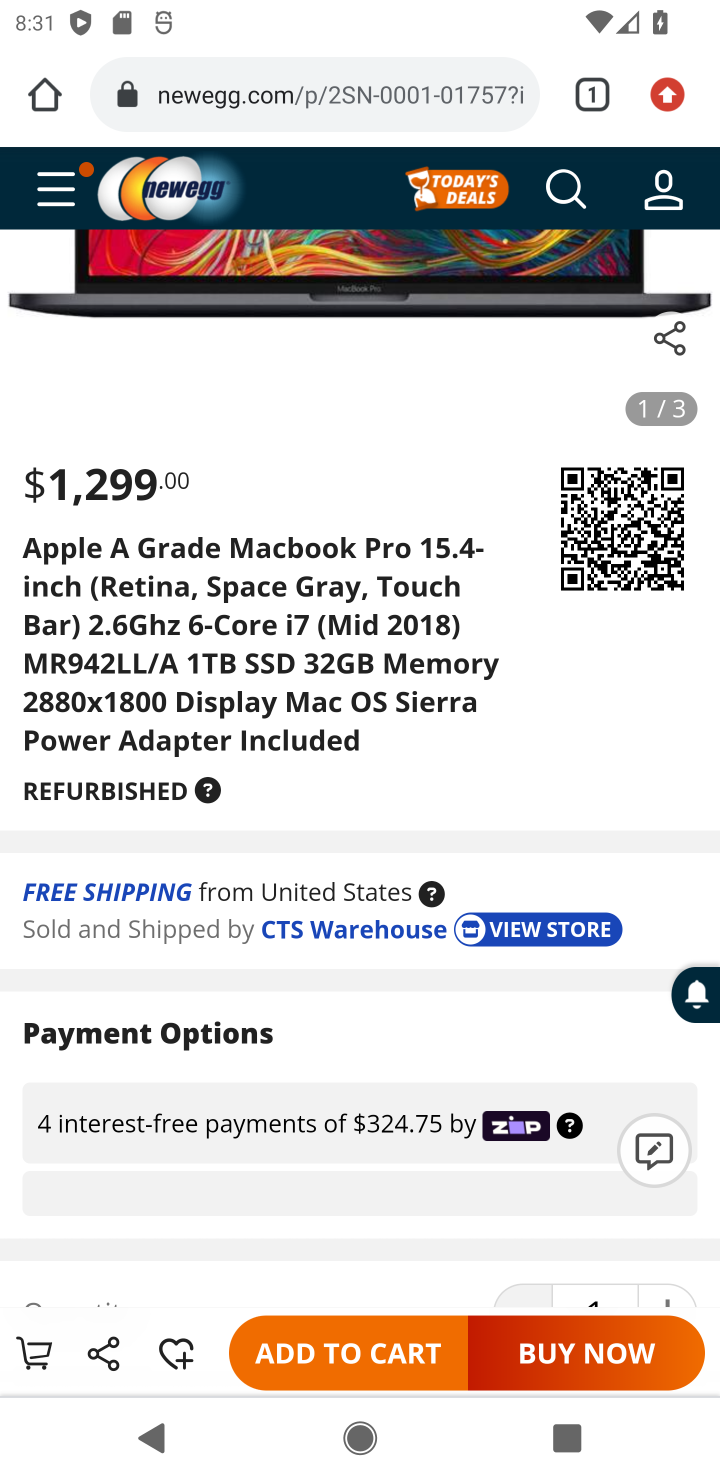
Step 32: click (318, 1349)
Your task to perform on an android device: Search for macbook on newegg, select the first entry, and add it to the cart. Image 33: 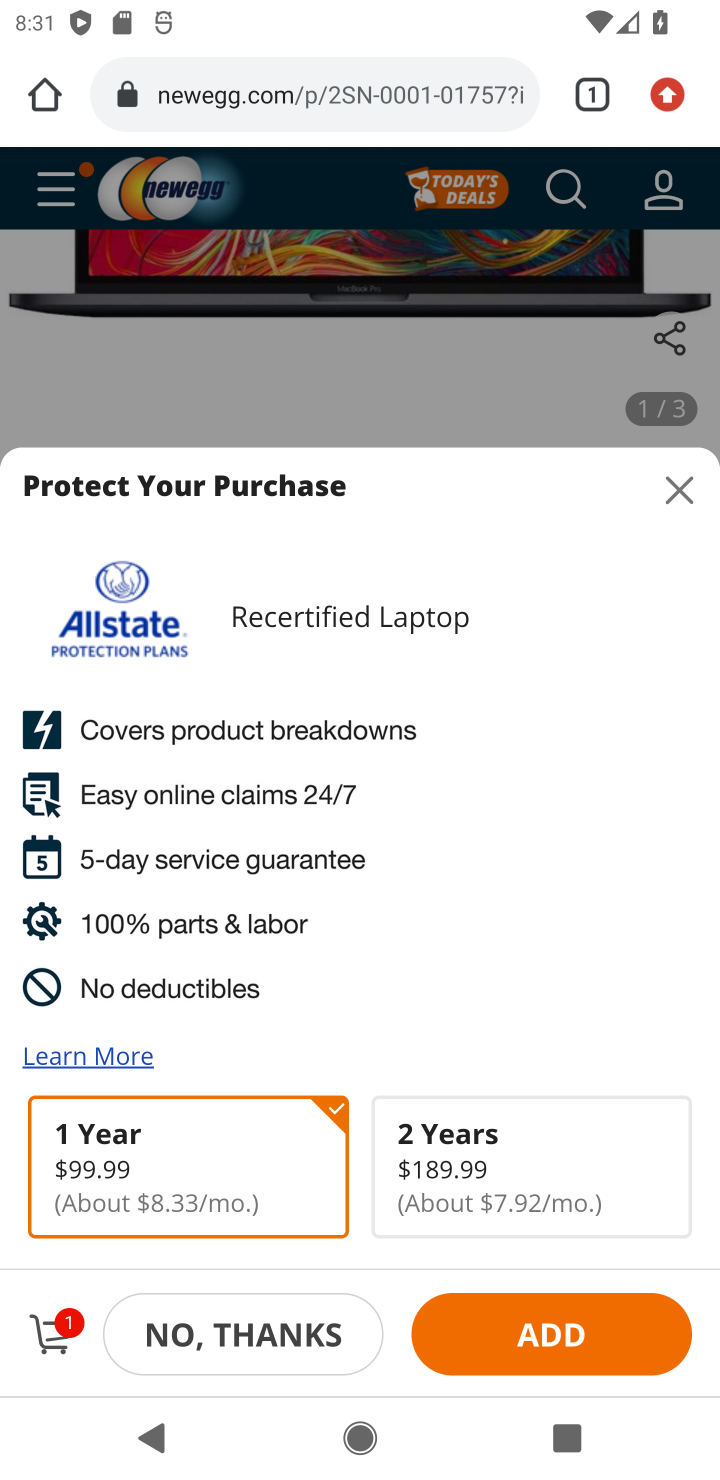
Step 33: click (48, 1348)
Your task to perform on an android device: Search for macbook on newegg, select the first entry, and add it to the cart. Image 34: 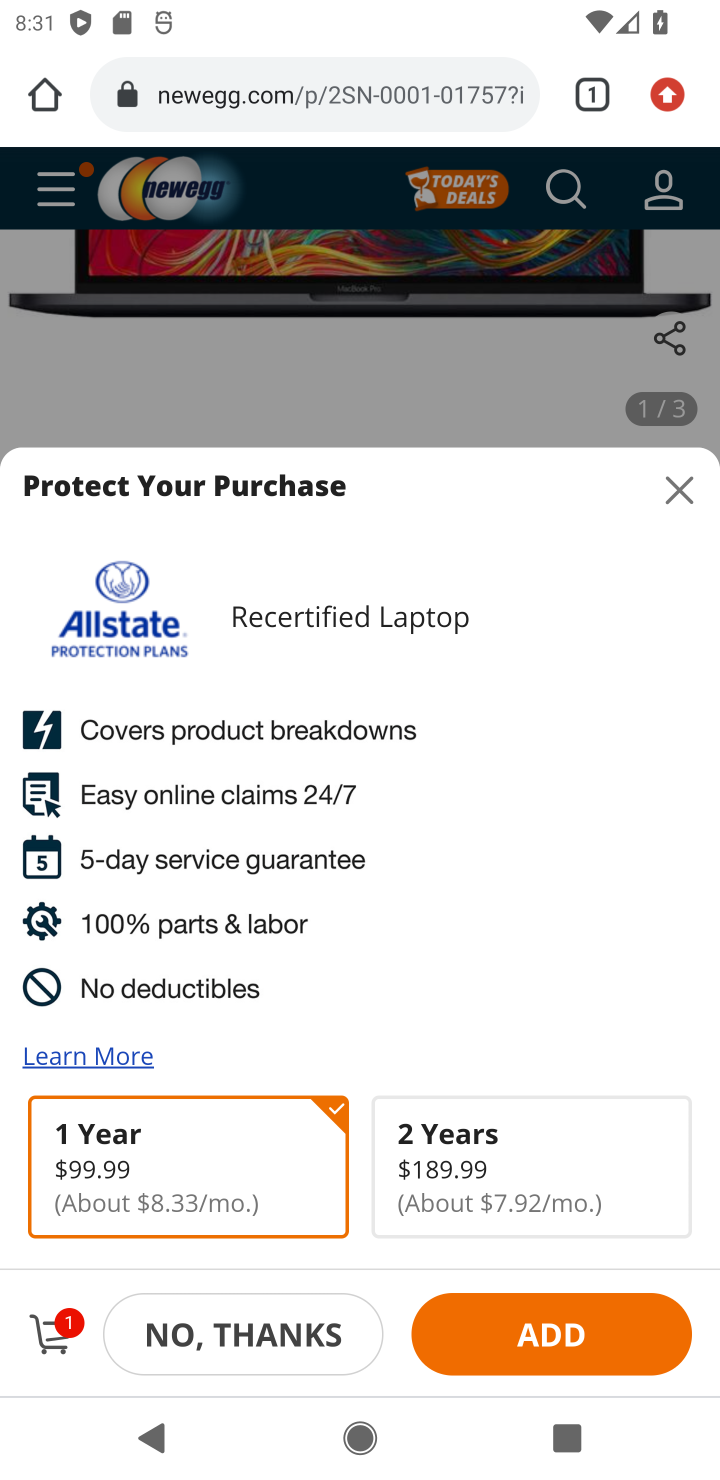
Step 34: click (72, 1334)
Your task to perform on an android device: Search for macbook on newegg, select the first entry, and add it to the cart. Image 35: 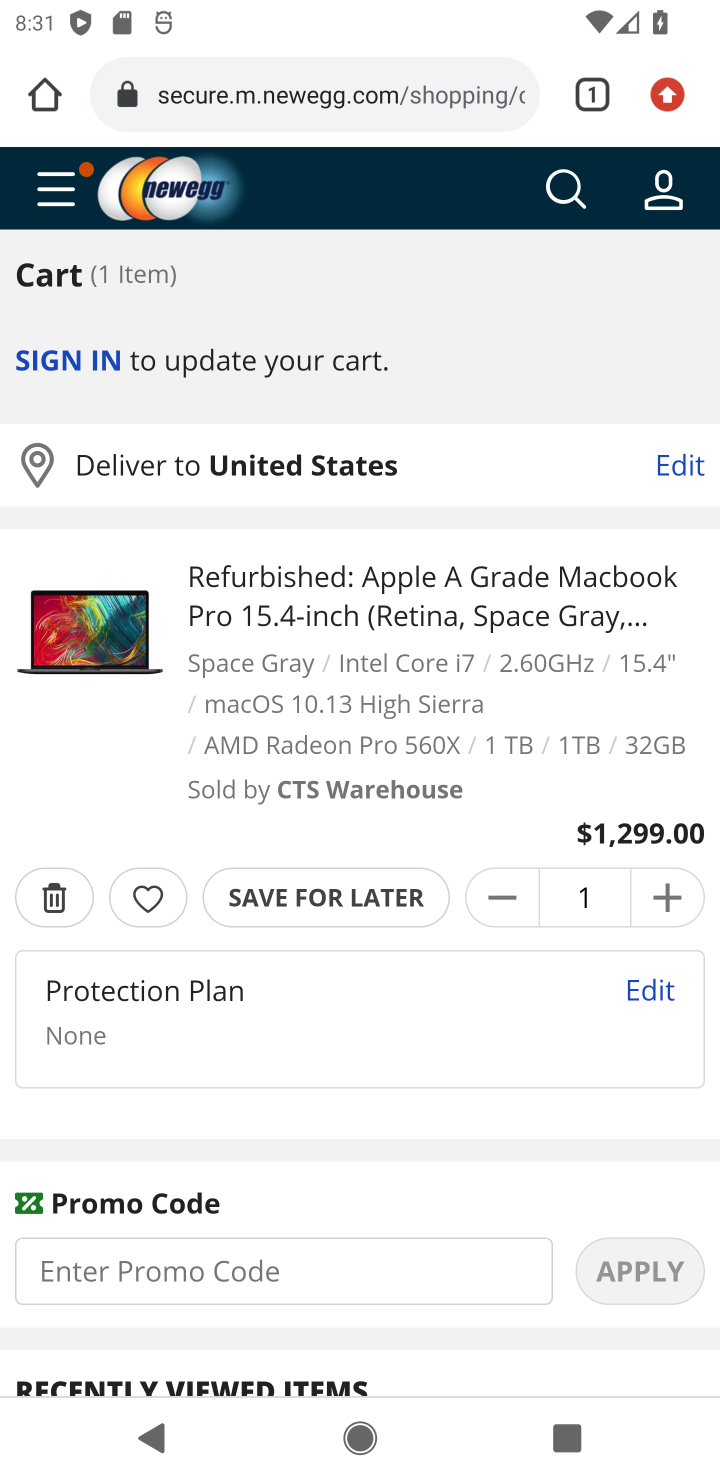
Step 35: task complete